Your task to perform on an android device: Clear the cart on costco. Image 0: 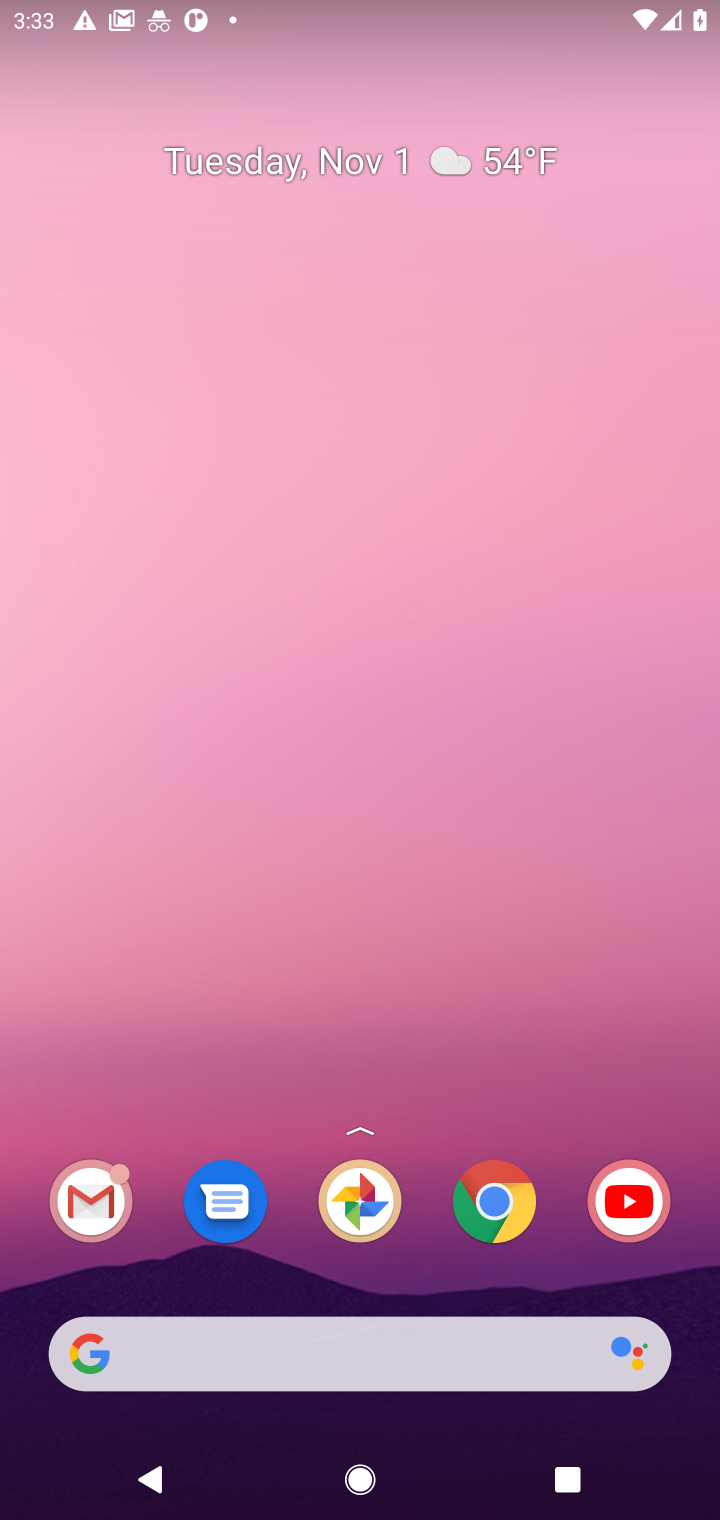
Step 0: press home button
Your task to perform on an android device: Clear the cart on costco. Image 1: 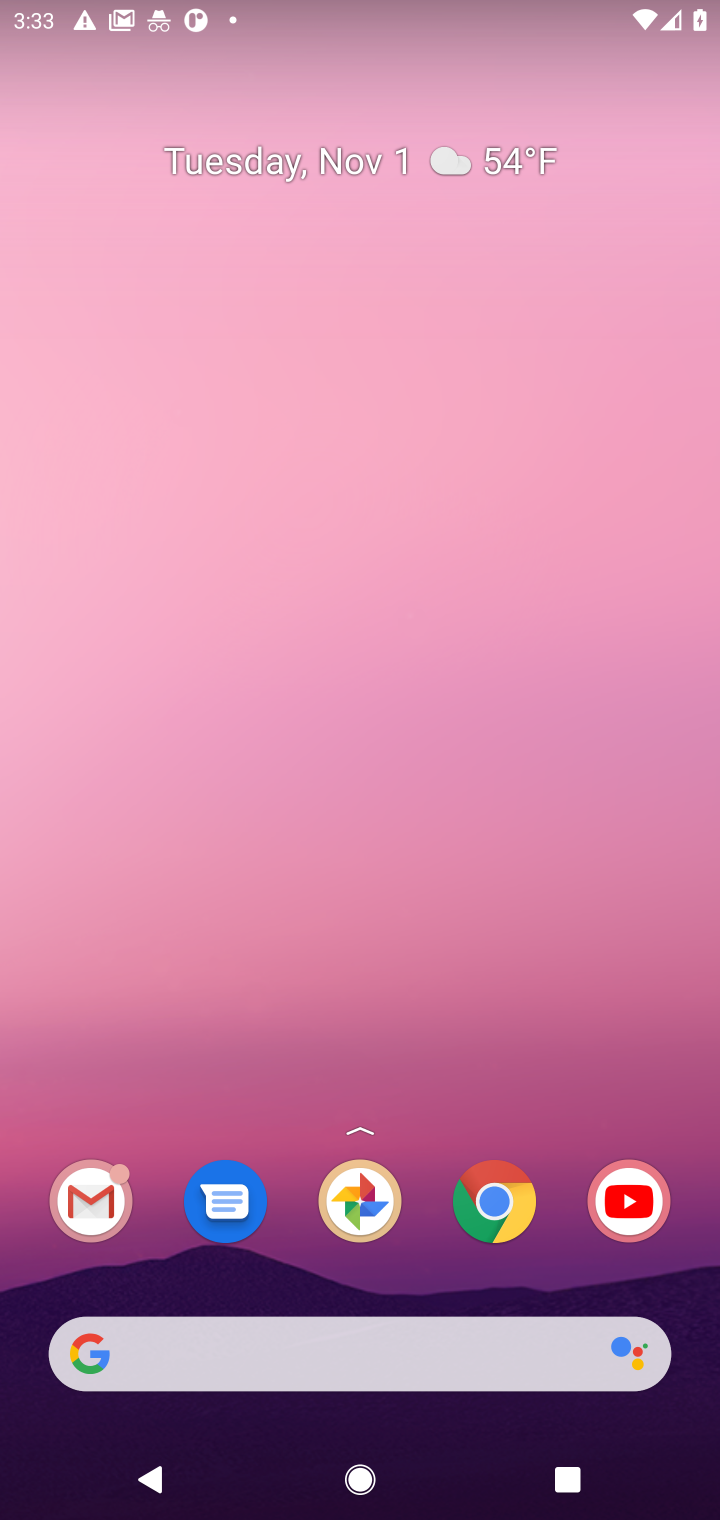
Step 1: click (276, 445)
Your task to perform on an android device: Clear the cart on costco. Image 2: 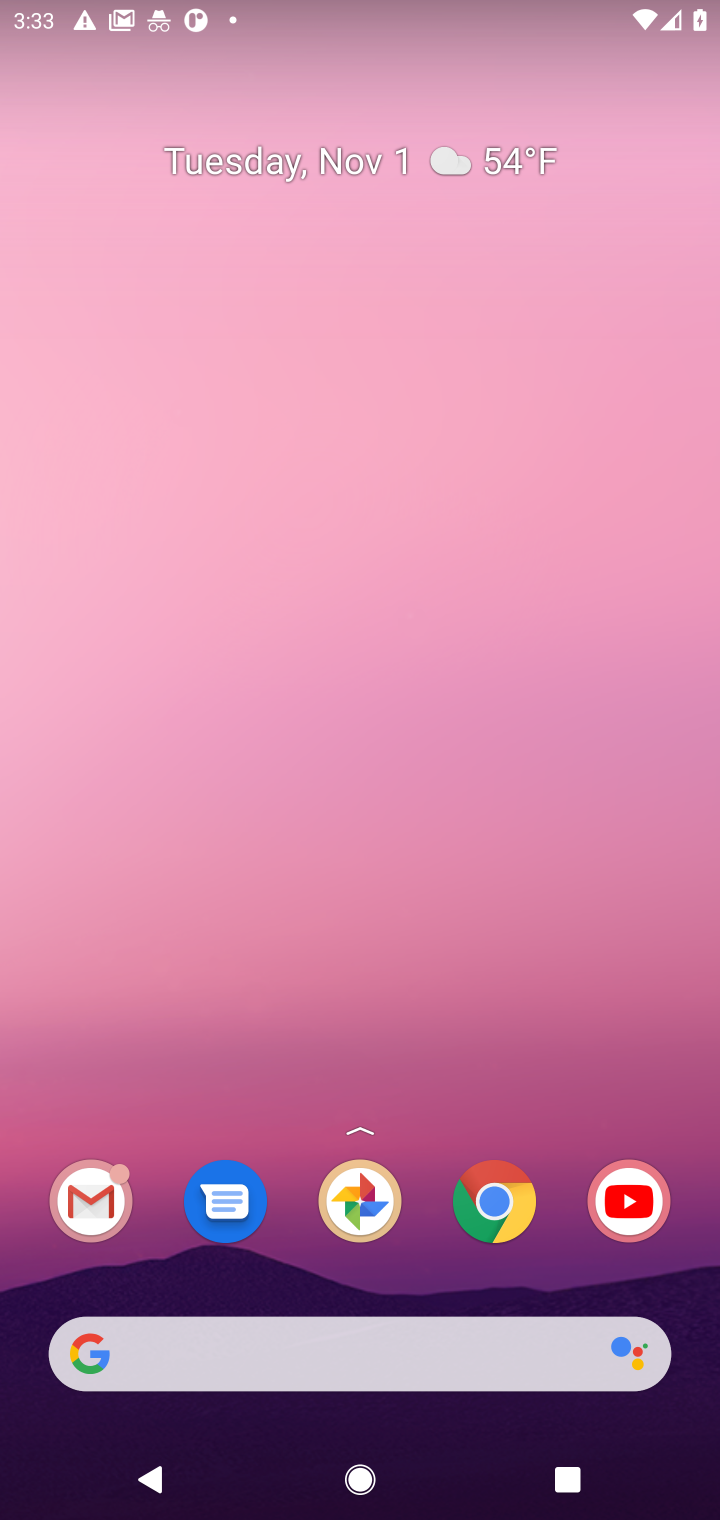
Step 2: drag from (265, 1234) to (303, 636)
Your task to perform on an android device: Clear the cart on costco. Image 3: 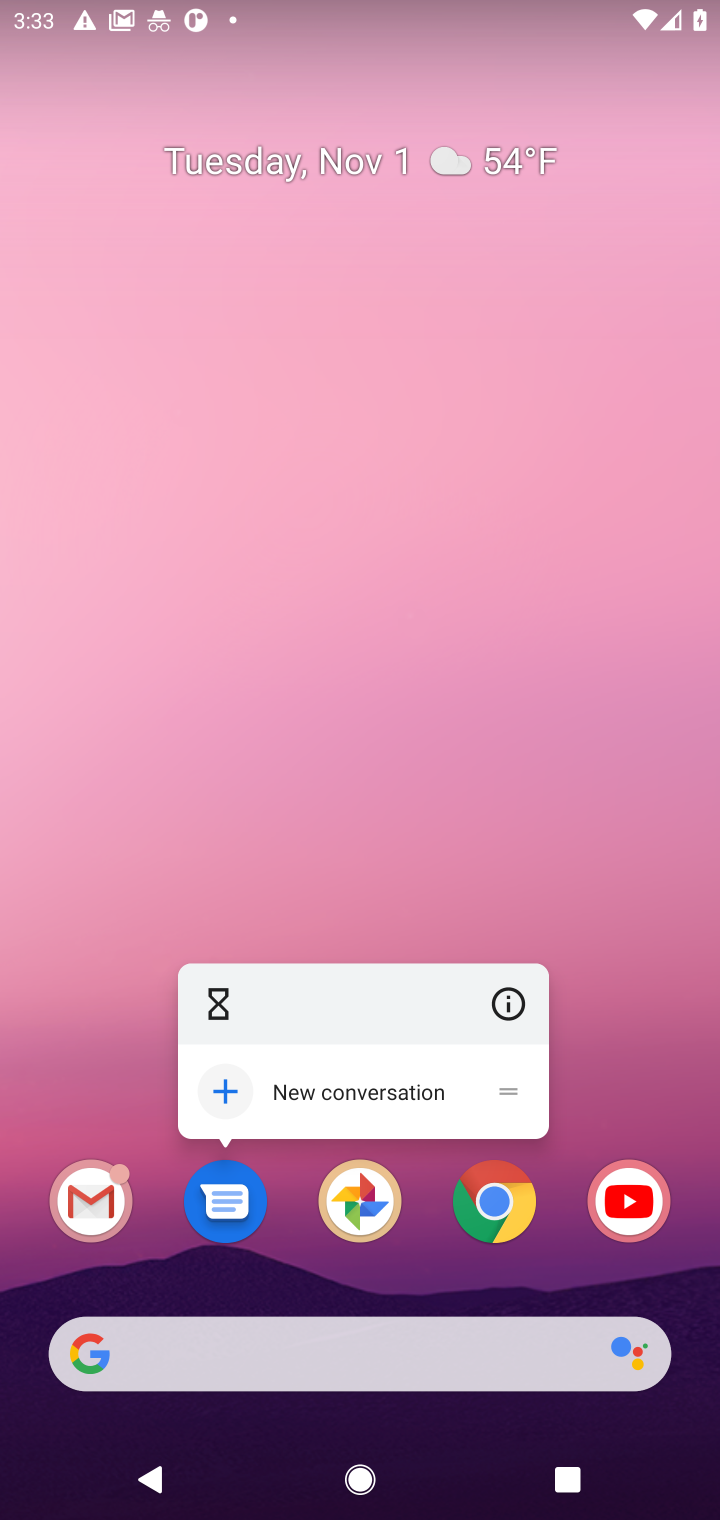
Step 3: click (264, 748)
Your task to perform on an android device: Clear the cart on costco. Image 4: 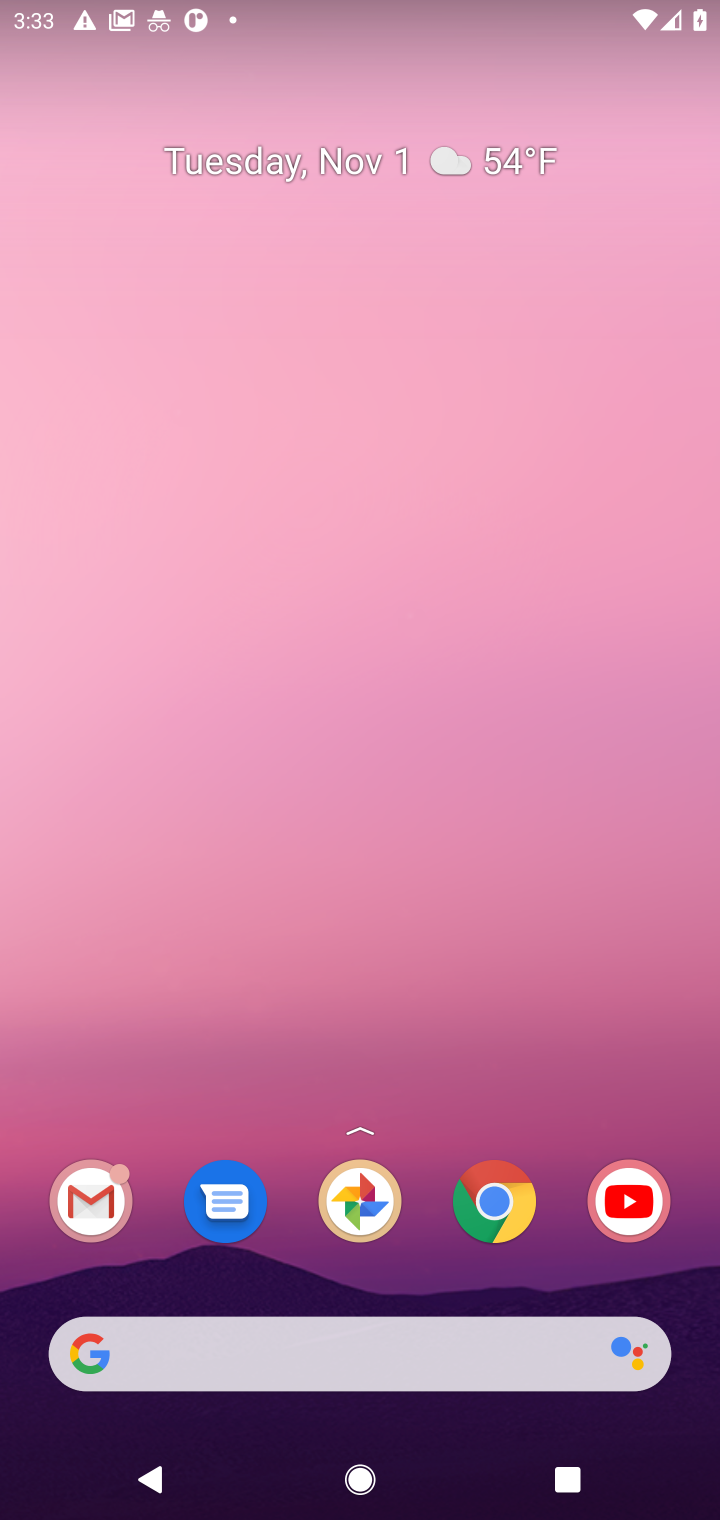
Step 4: drag from (277, 1312) to (303, 1180)
Your task to perform on an android device: Clear the cart on costco. Image 5: 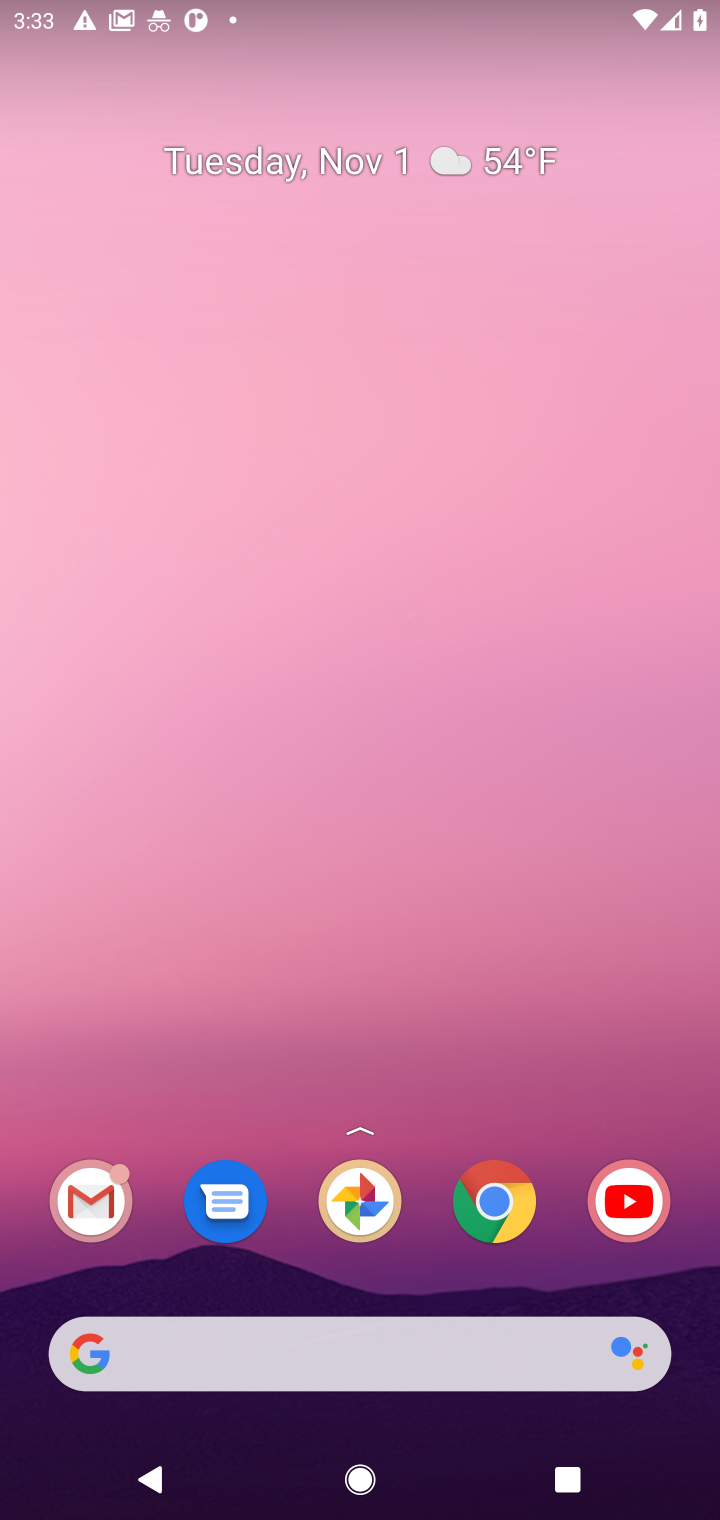
Step 5: drag from (254, 1357) to (367, 287)
Your task to perform on an android device: Clear the cart on costco. Image 6: 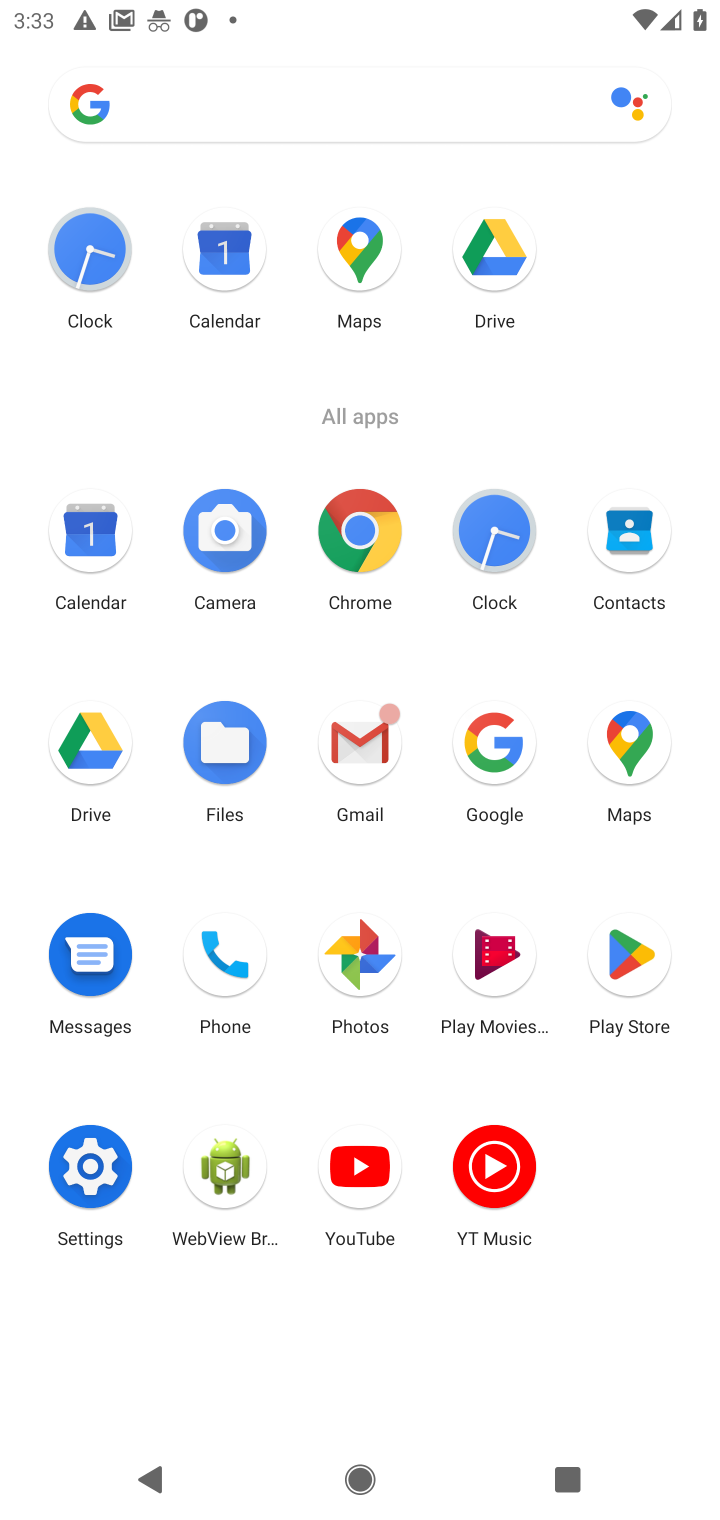
Step 6: click (475, 733)
Your task to perform on an android device: Clear the cart on costco. Image 7: 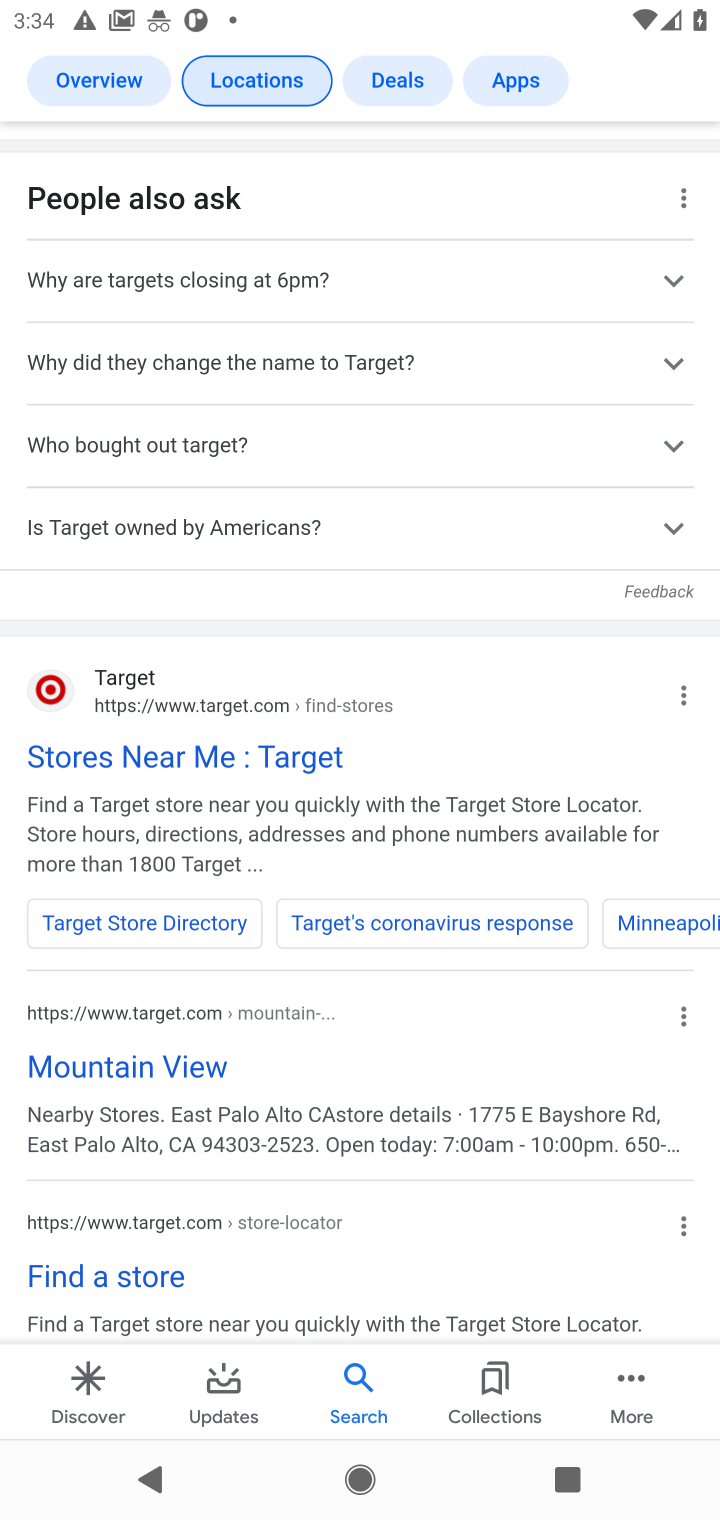
Step 7: drag from (296, 178) to (234, 1116)
Your task to perform on an android device: Clear the cart on costco. Image 8: 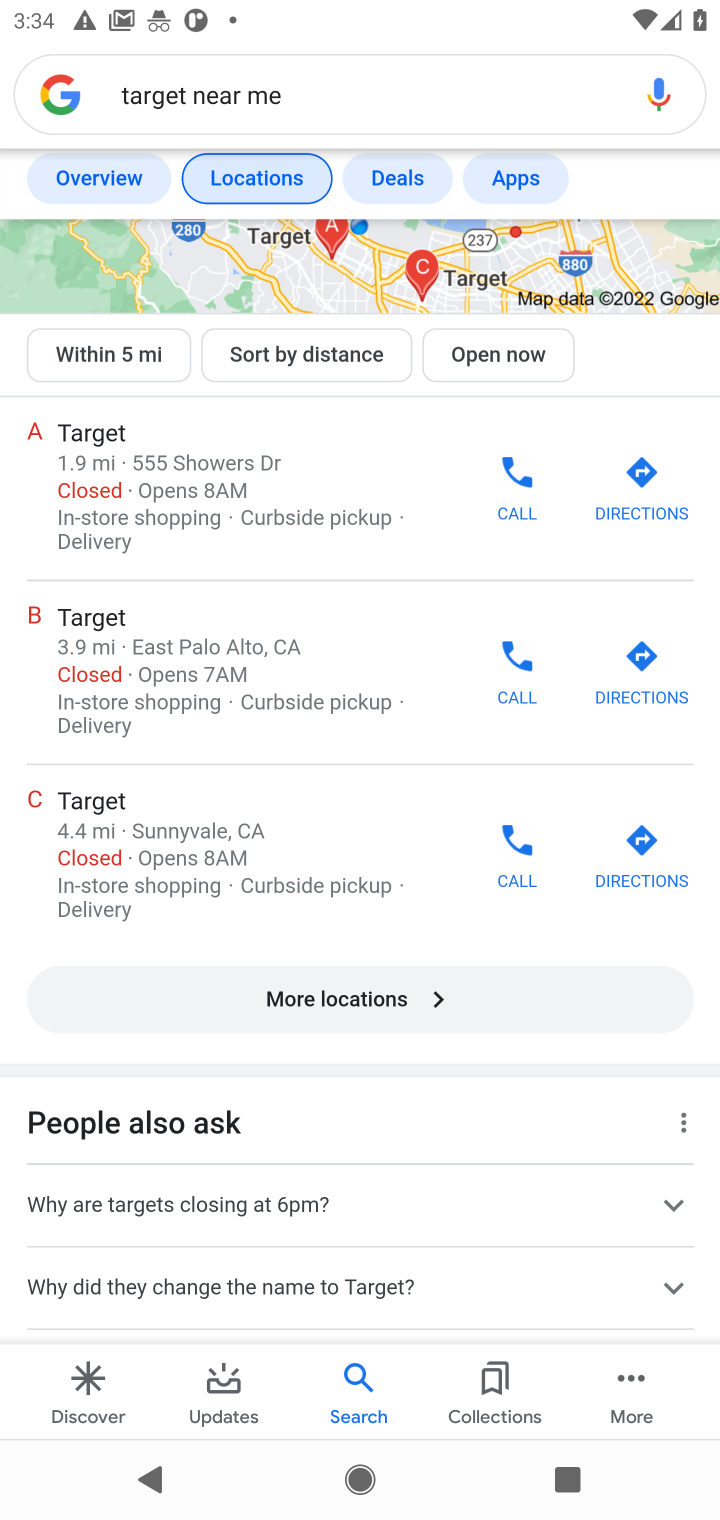
Step 8: click (297, 92)
Your task to perform on an android device: Clear the cart on costco. Image 9: 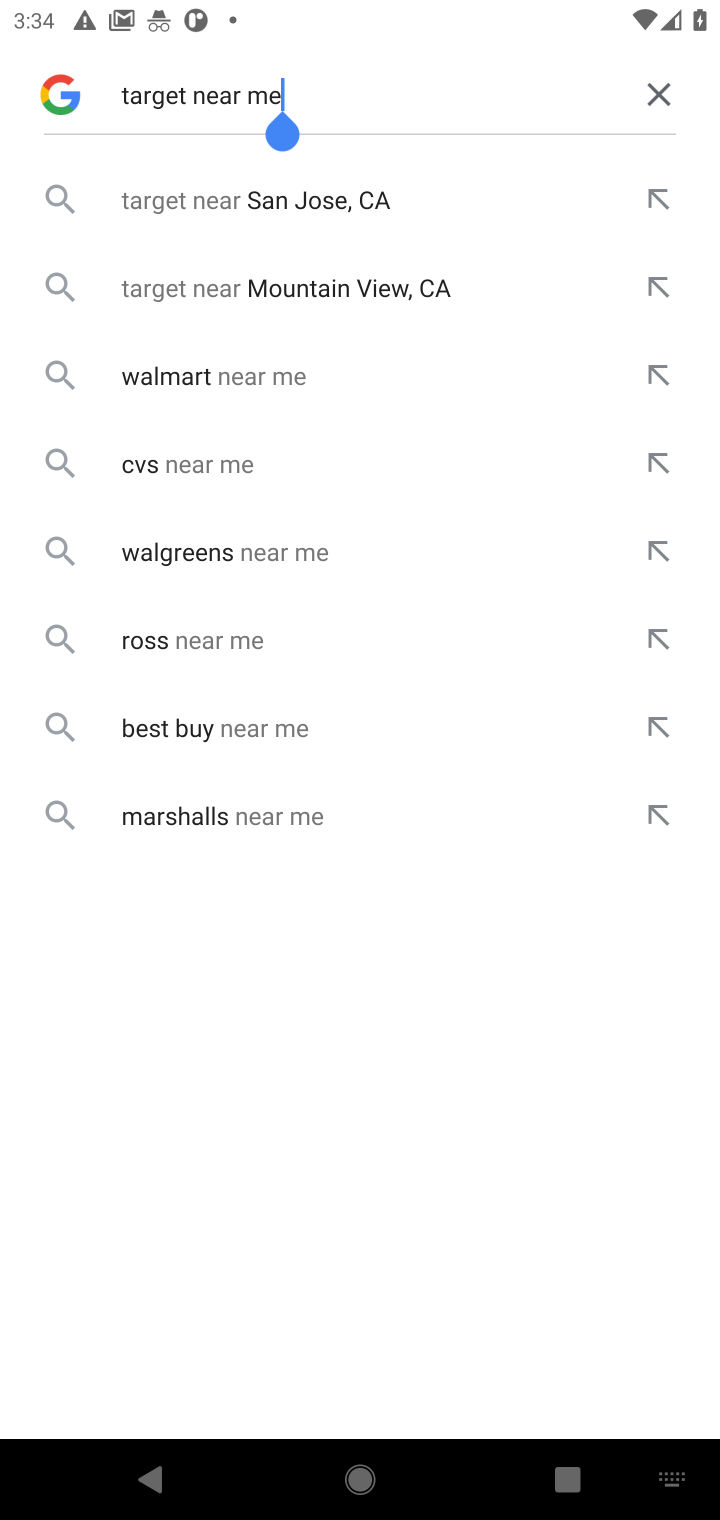
Step 9: click (653, 90)
Your task to perform on an android device: Clear the cart on costco. Image 10: 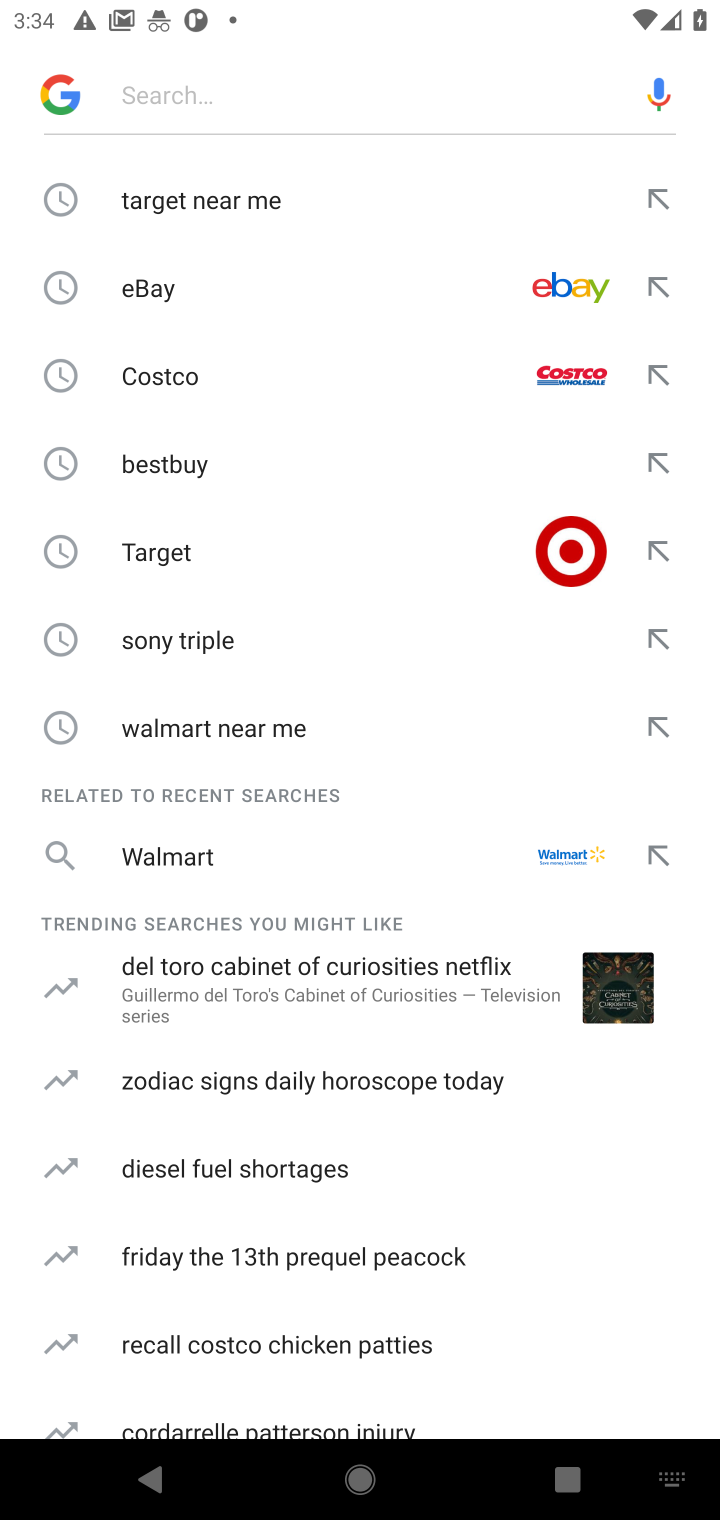
Step 10: click (229, 80)
Your task to perform on an android device: Clear the cart on costco. Image 11: 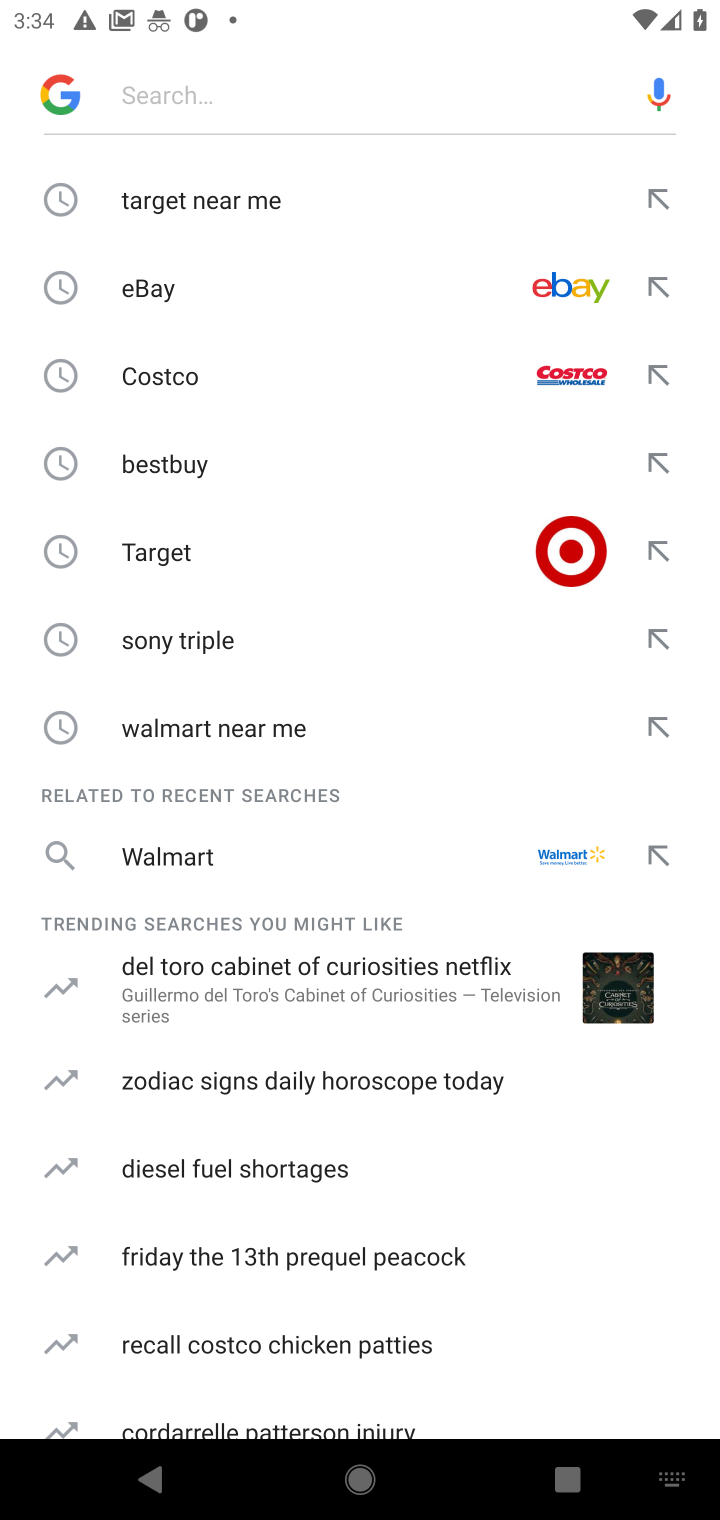
Step 11: type "costco "
Your task to perform on an android device: Clear the cart on costco. Image 12: 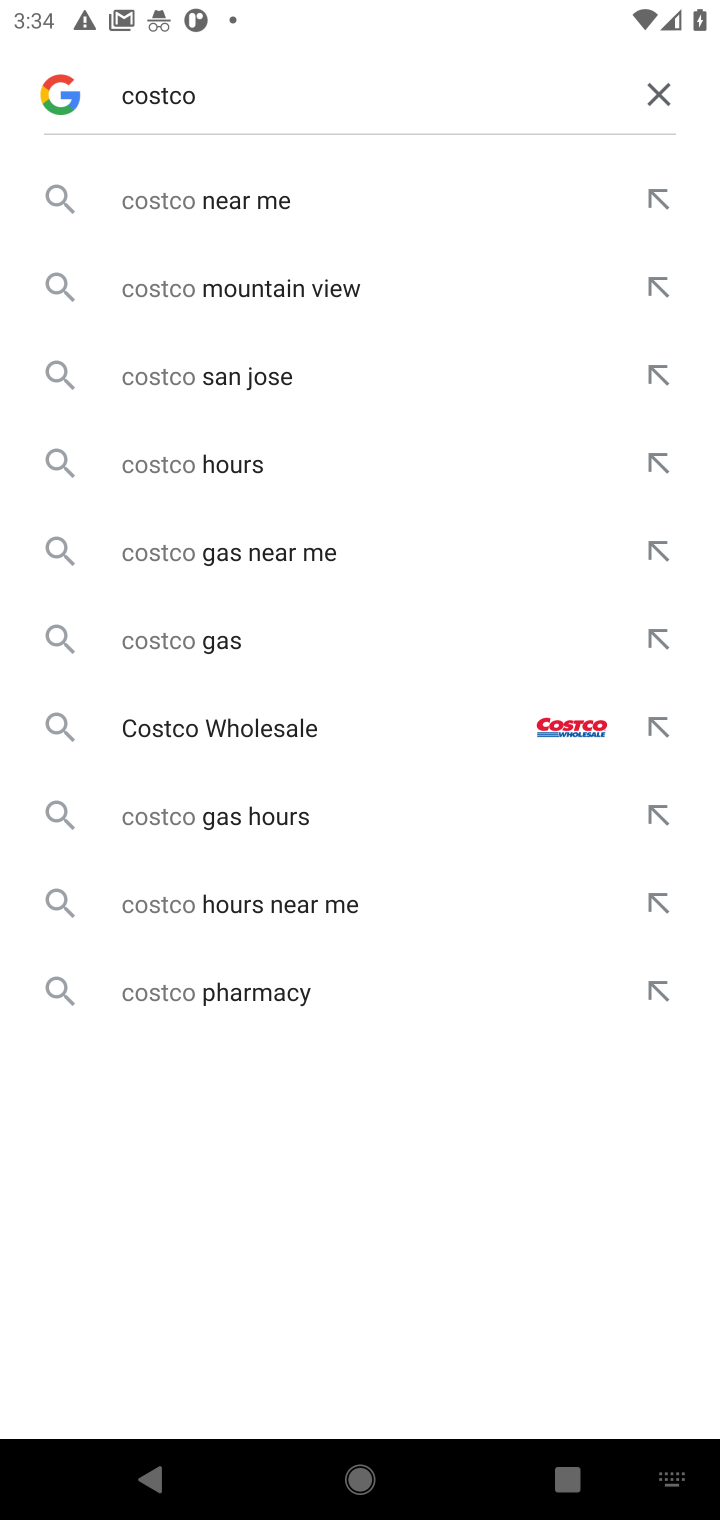
Step 12: click (264, 189)
Your task to perform on an android device: Clear the cart on costco. Image 13: 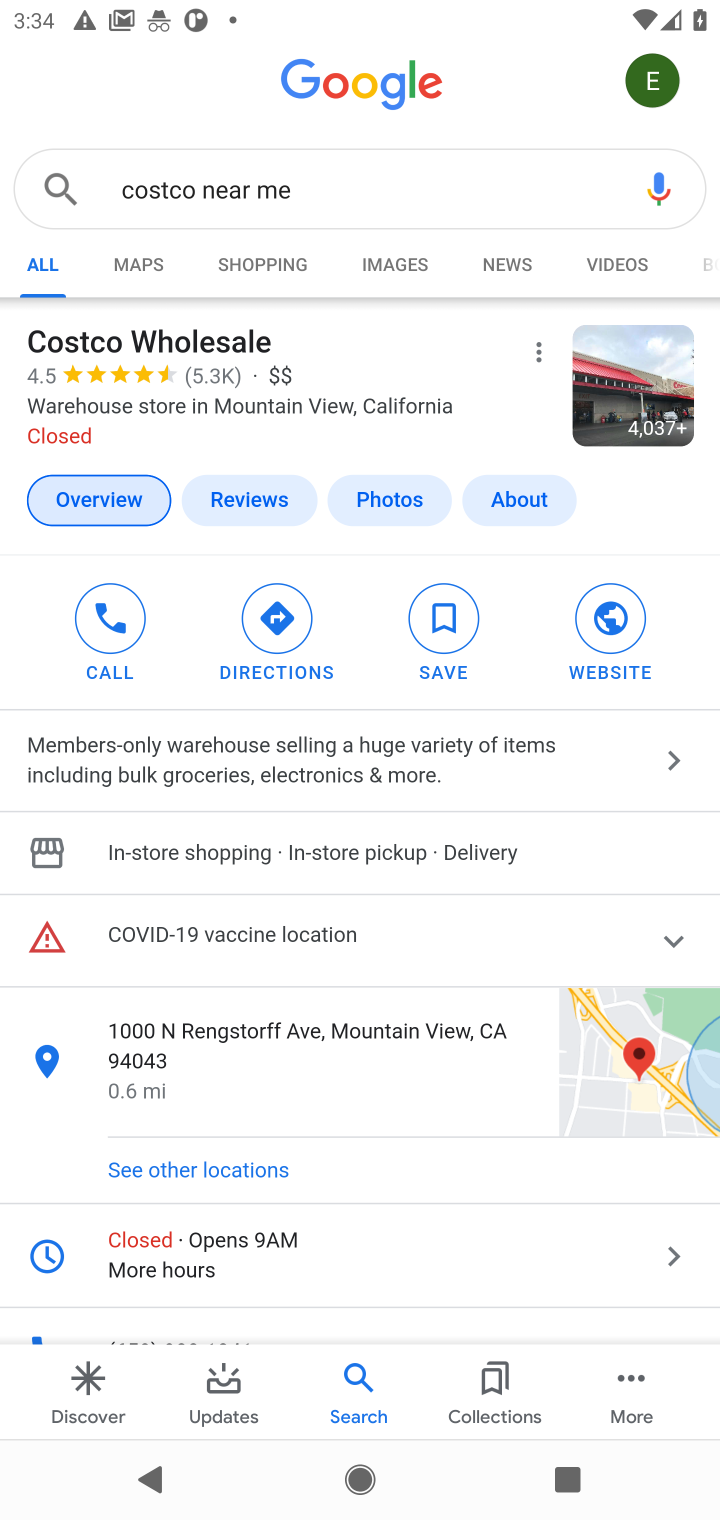
Step 13: drag from (248, 1347) to (342, 703)
Your task to perform on an android device: Clear the cart on costco. Image 14: 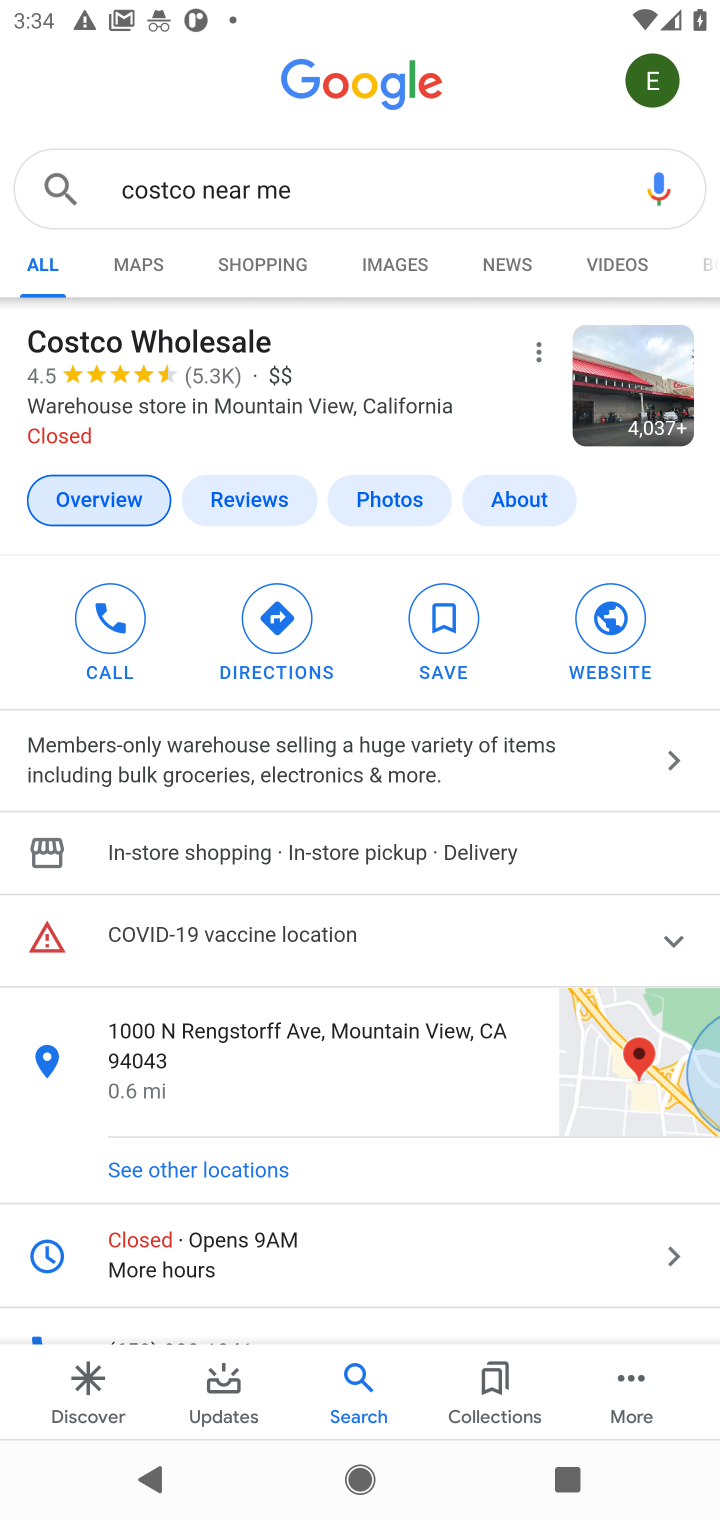
Step 14: drag from (289, 1117) to (344, 522)
Your task to perform on an android device: Clear the cart on costco. Image 15: 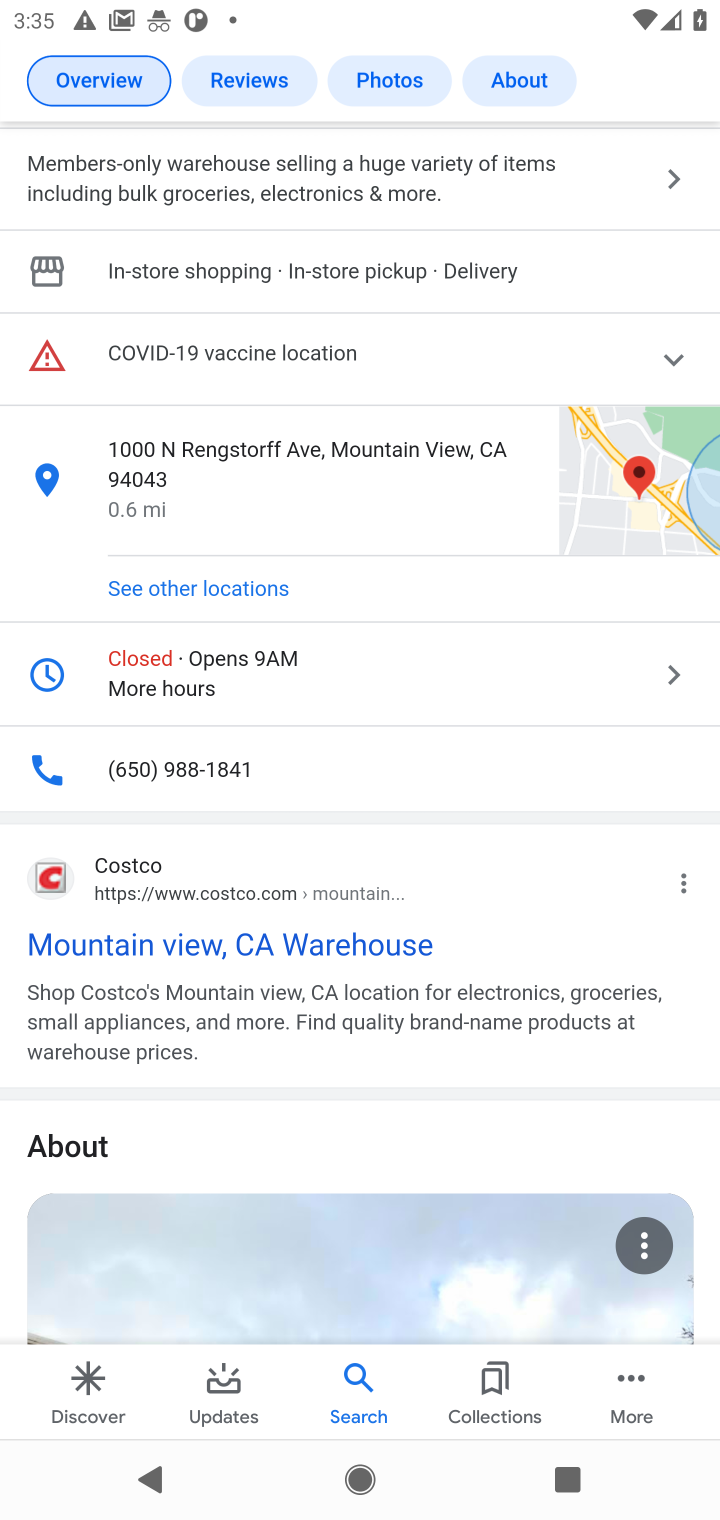
Step 15: drag from (228, 1112) to (236, 331)
Your task to perform on an android device: Clear the cart on costco. Image 16: 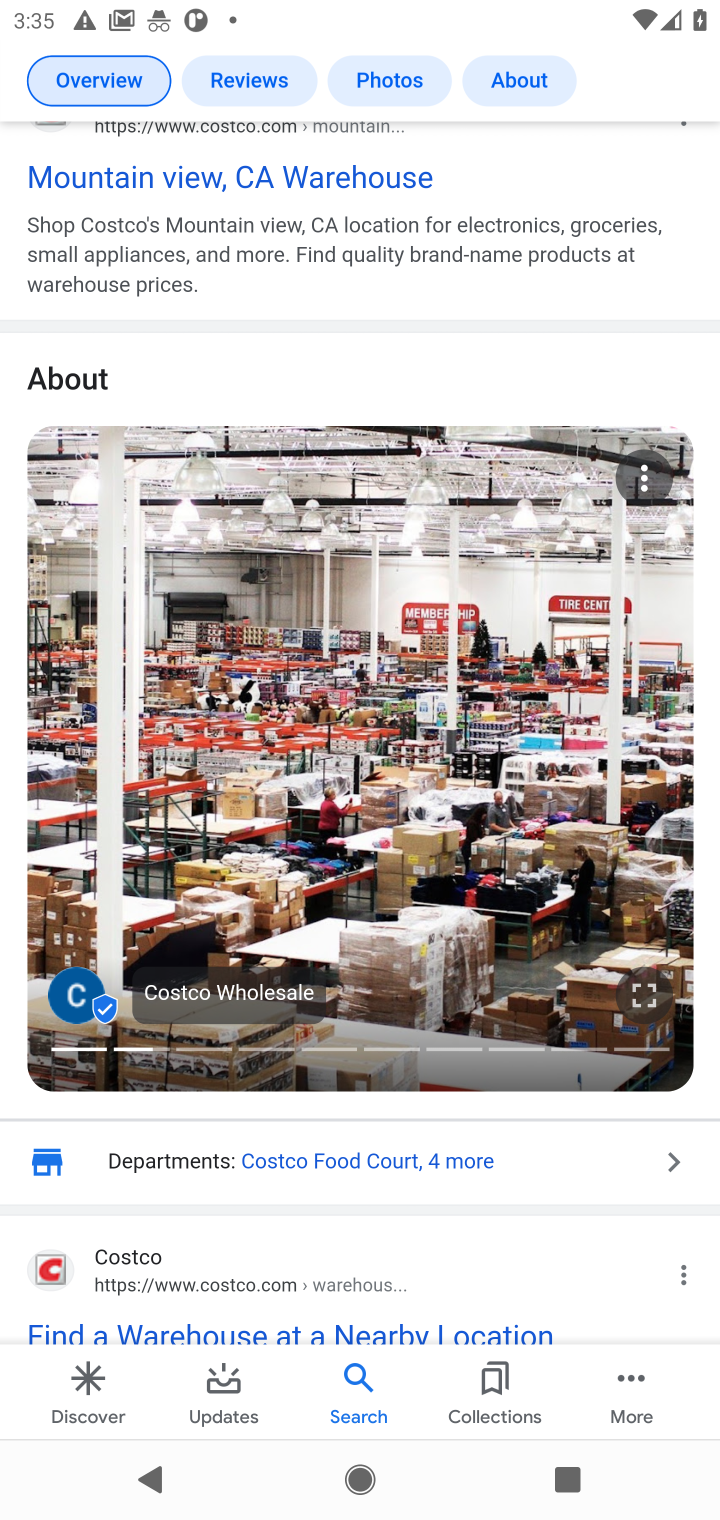
Step 16: click (38, 349)
Your task to perform on an android device: Clear the cart on costco. Image 17: 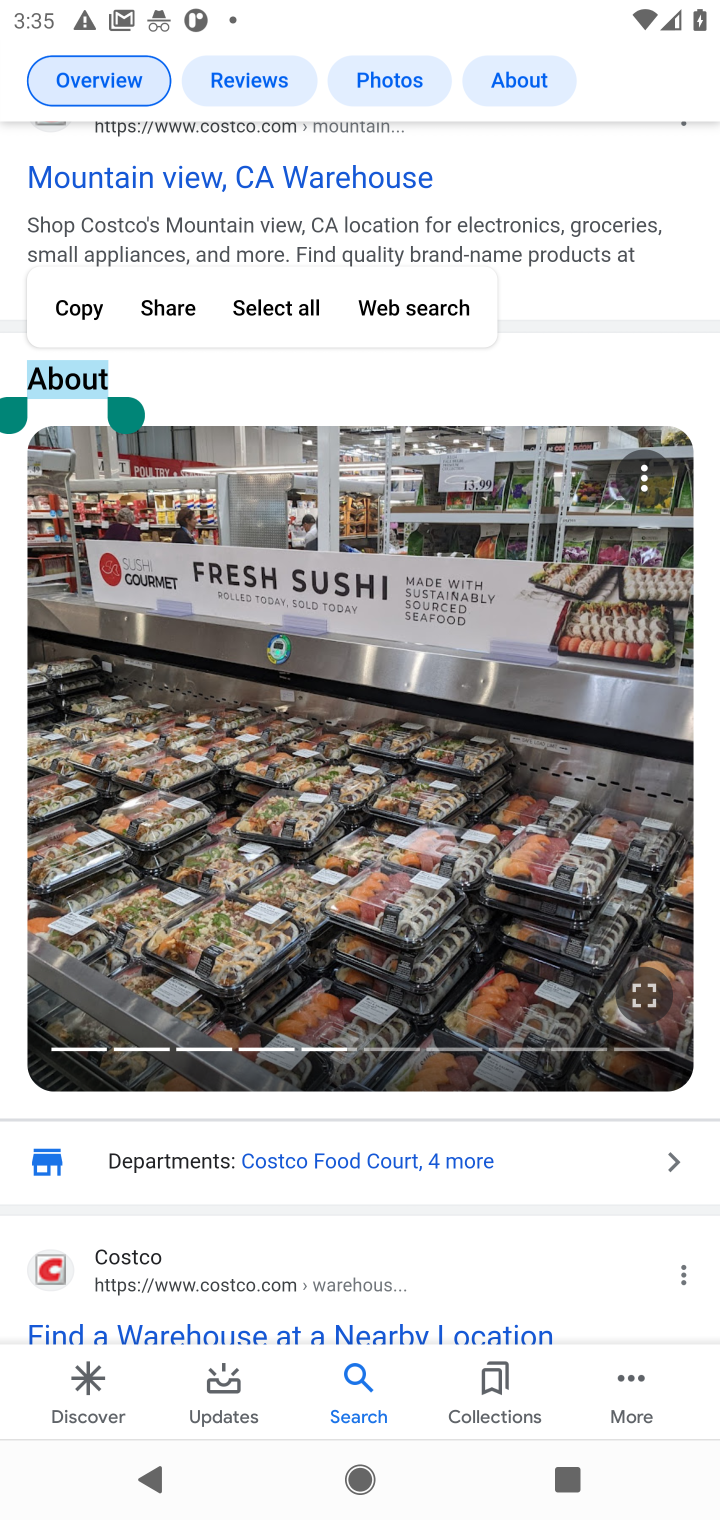
Step 17: drag from (131, 568) to (128, 999)
Your task to perform on an android device: Clear the cart on costco. Image 18: 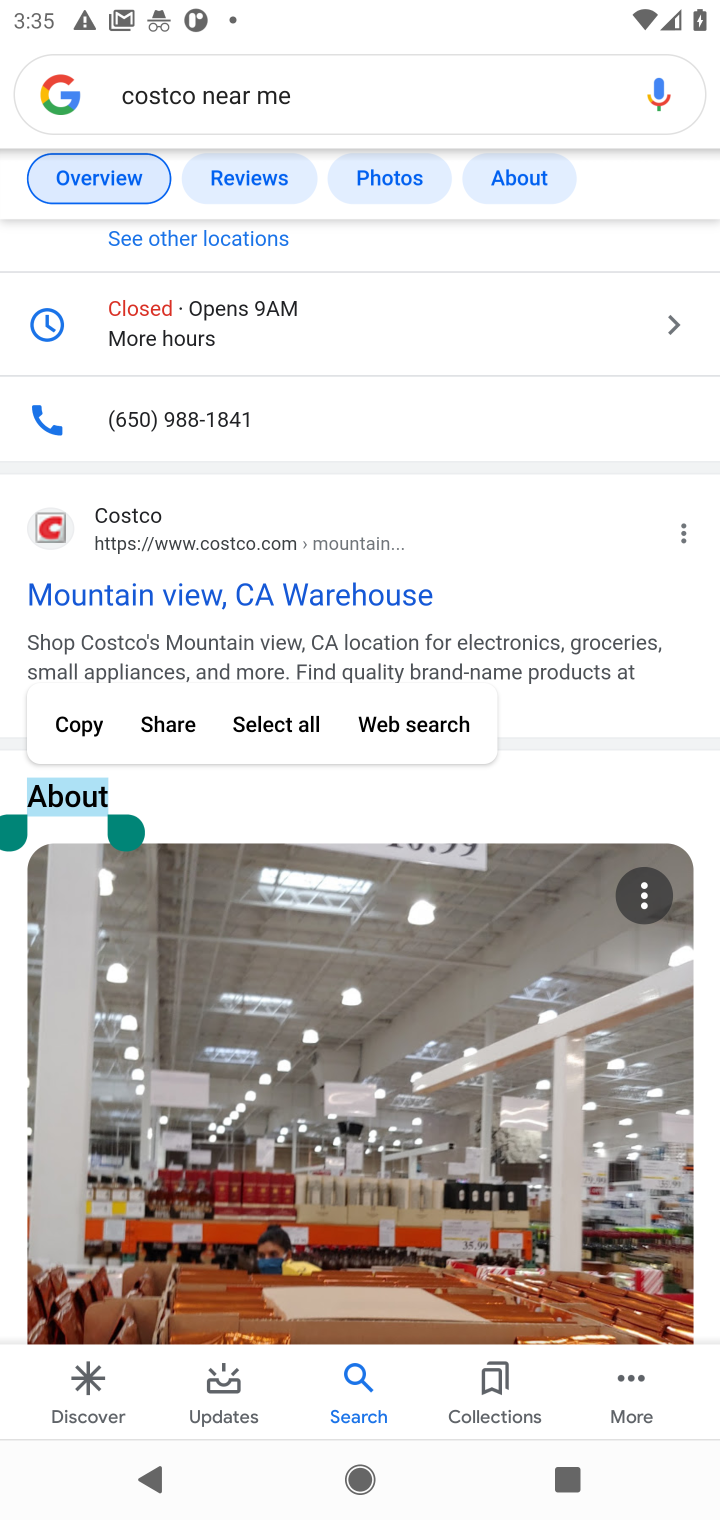
Step 18: click (56, 521)
Your task to perform on an android device: Clear the cart on costco. Image 19: 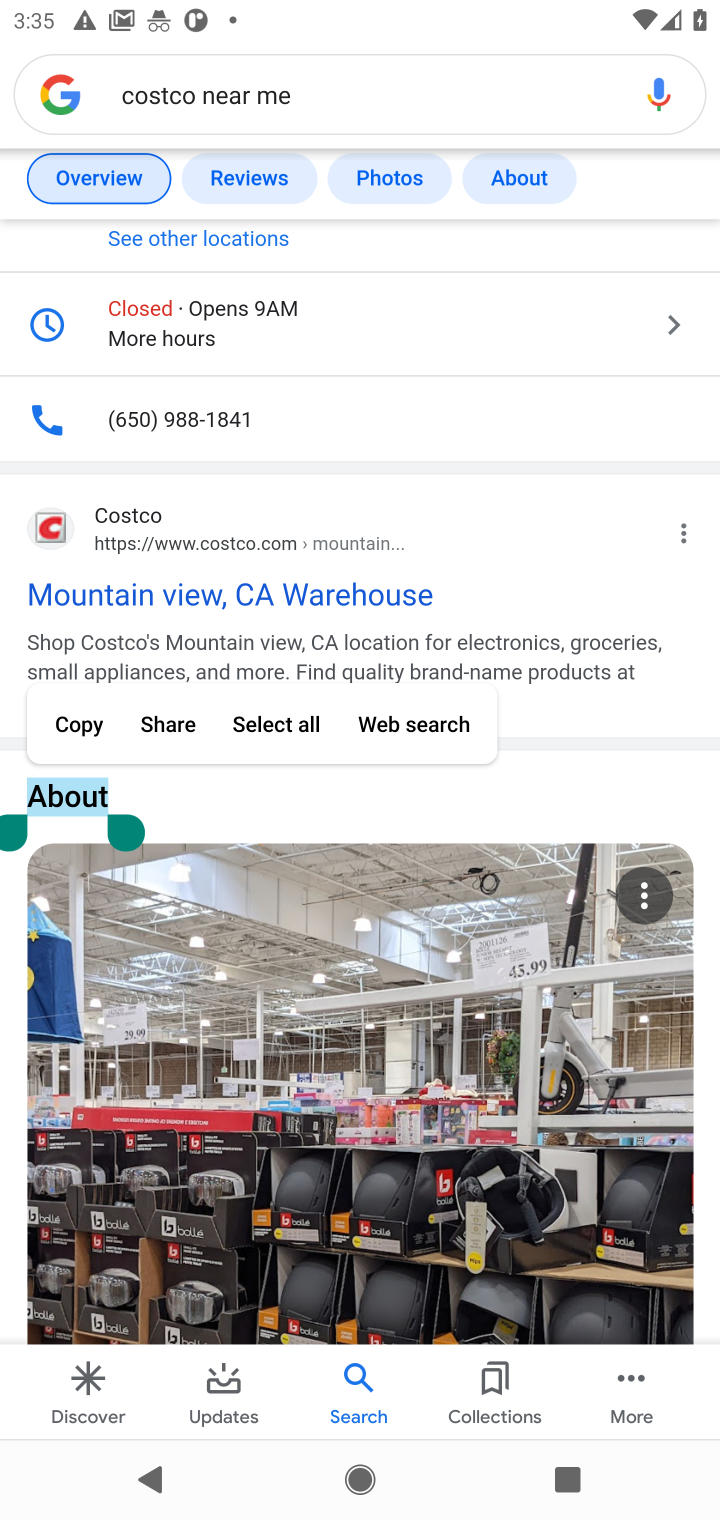
Step 19: click (44, 529)
Your task to perform on an android device: Clear the cart on costco. Image 20: 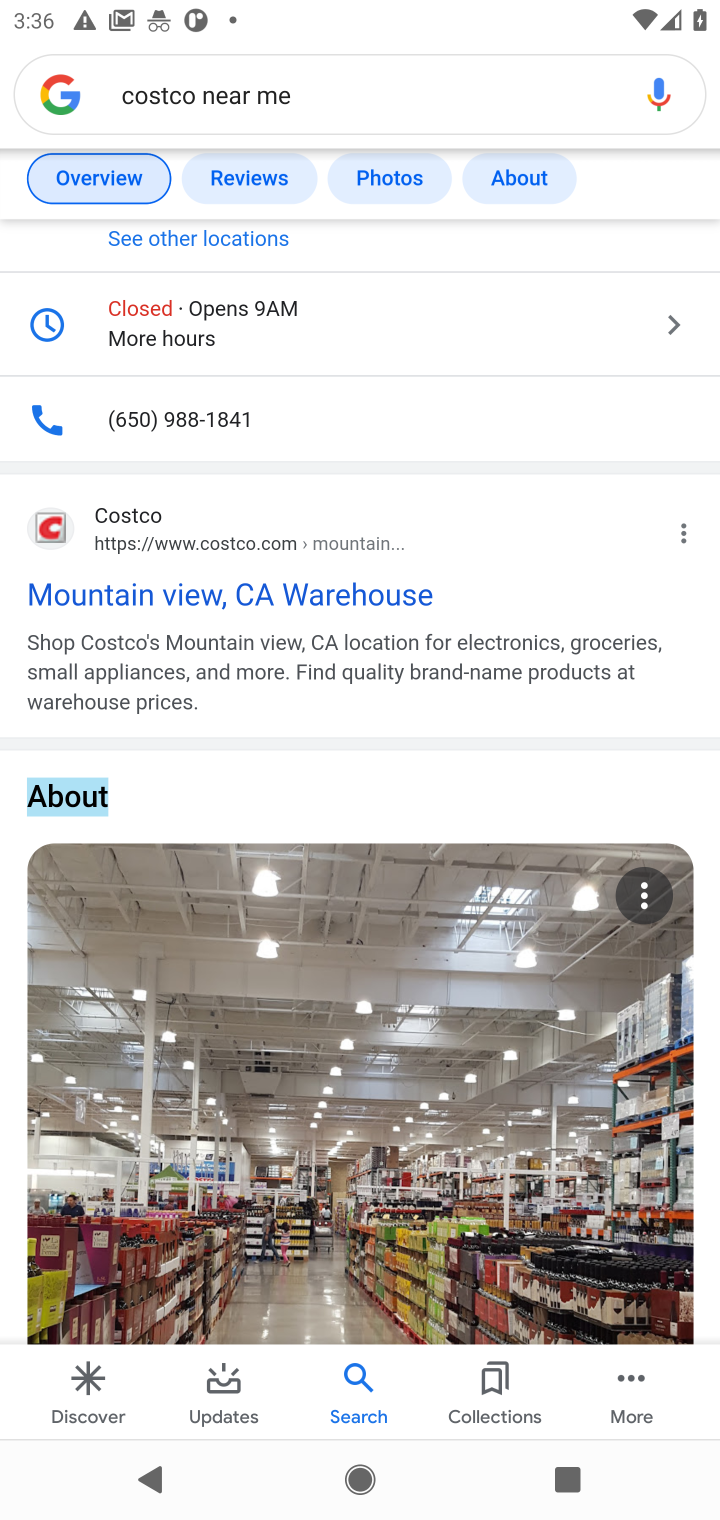
Step 20: click (135, 518)
Your task to perform on an android device: Clear the cart on costco. Image 21: 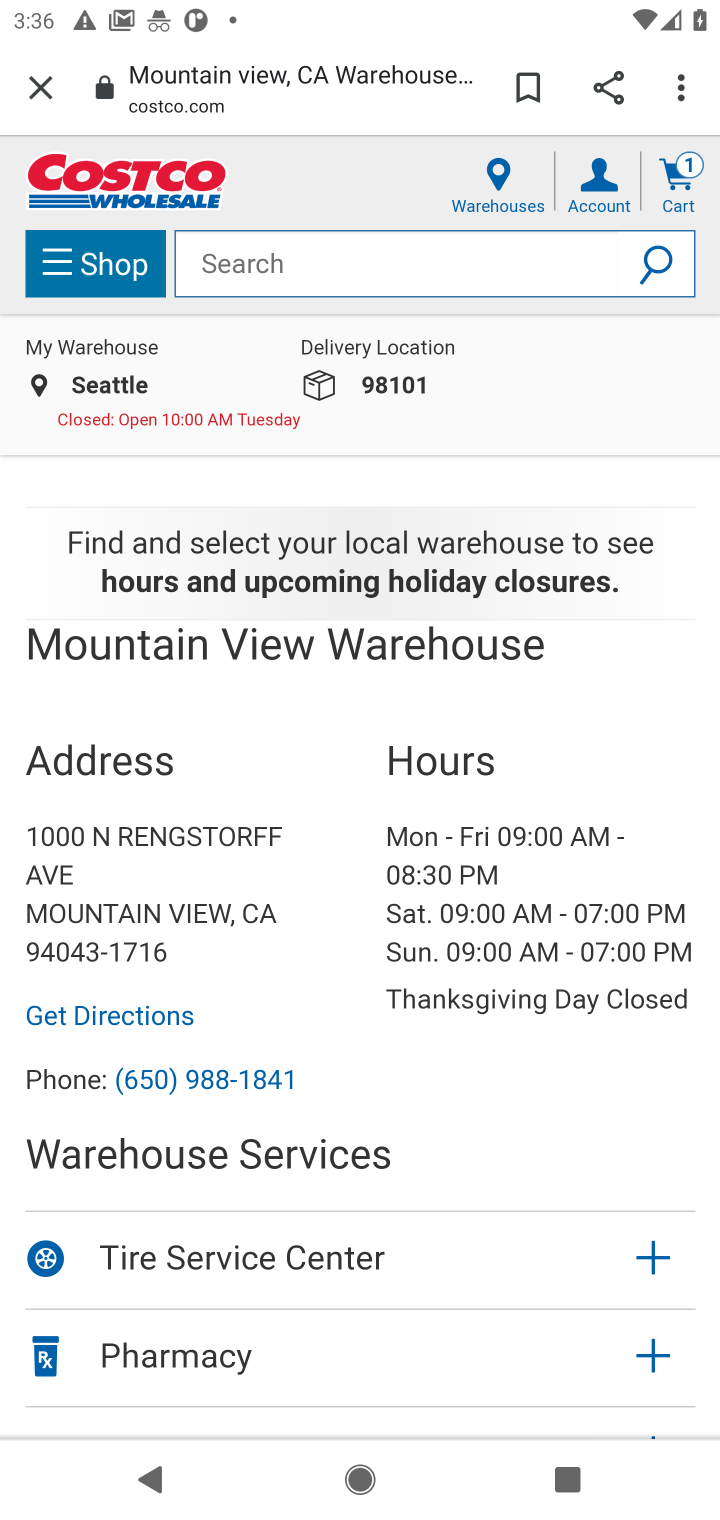
Step 21: click (680, 168)
Your task to perform on an android device: Clear the cart on costco. Image 22: 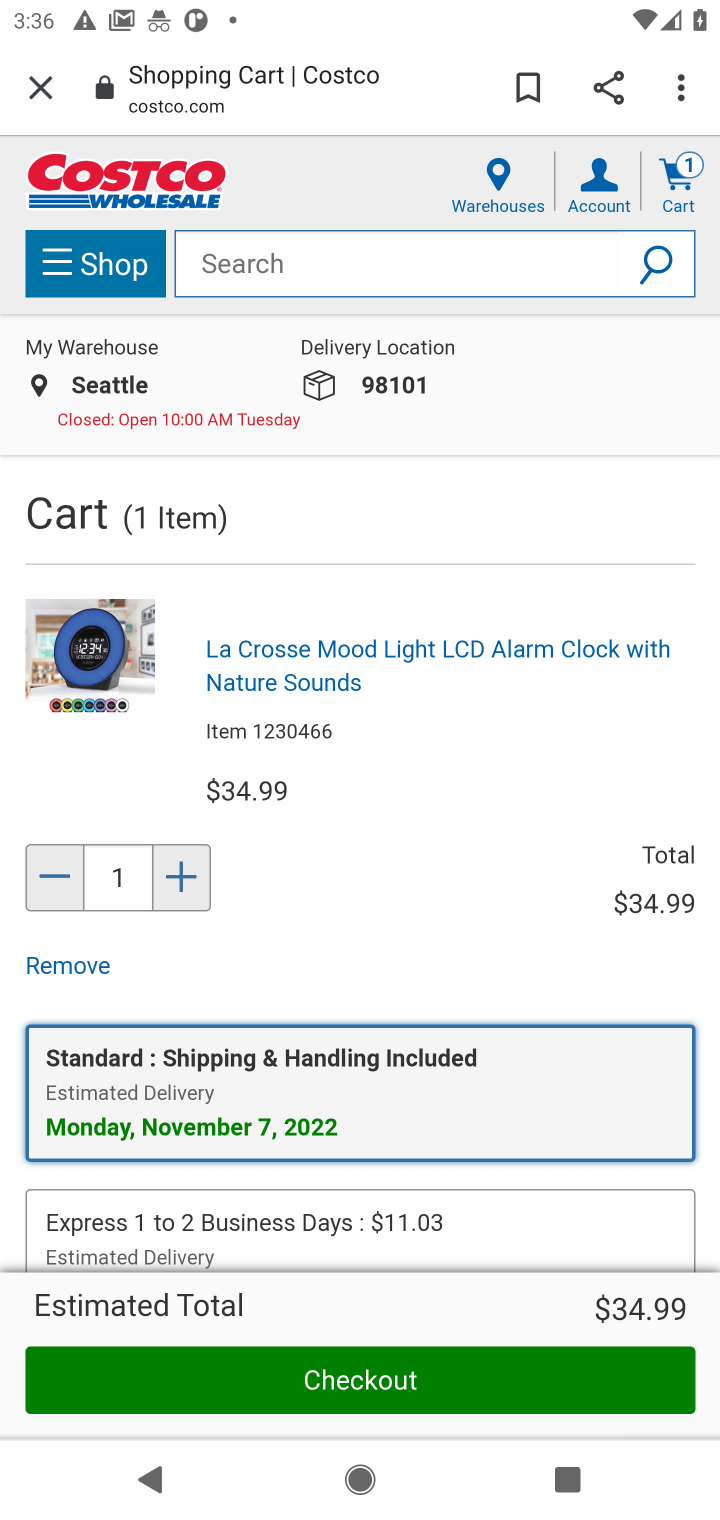
Step 22: click (76, 973)
Your task to perform on an android device: Clear the cart on costco. Image 23: 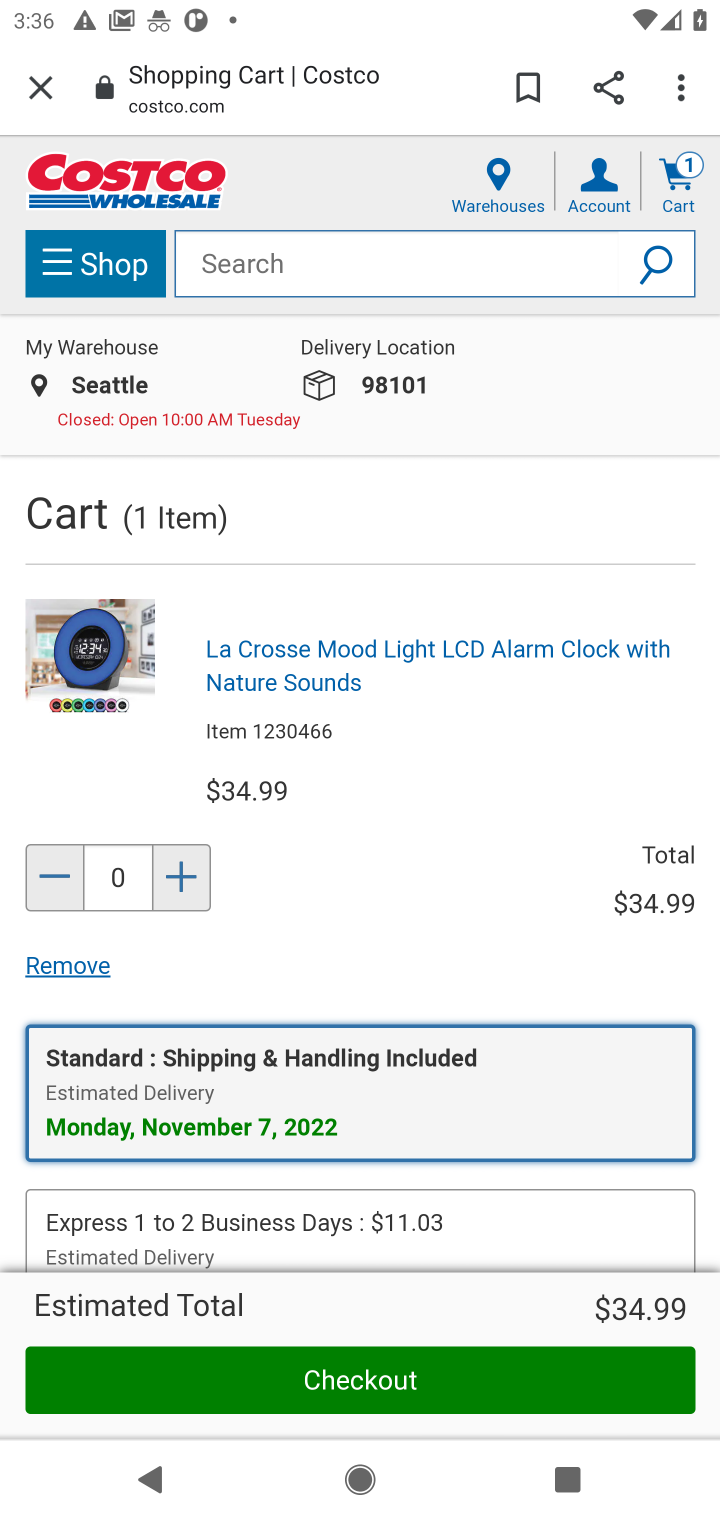
Step 23: click (65, 969)
Your task to perform on an android device: Clear the cart on costco. Image 24: 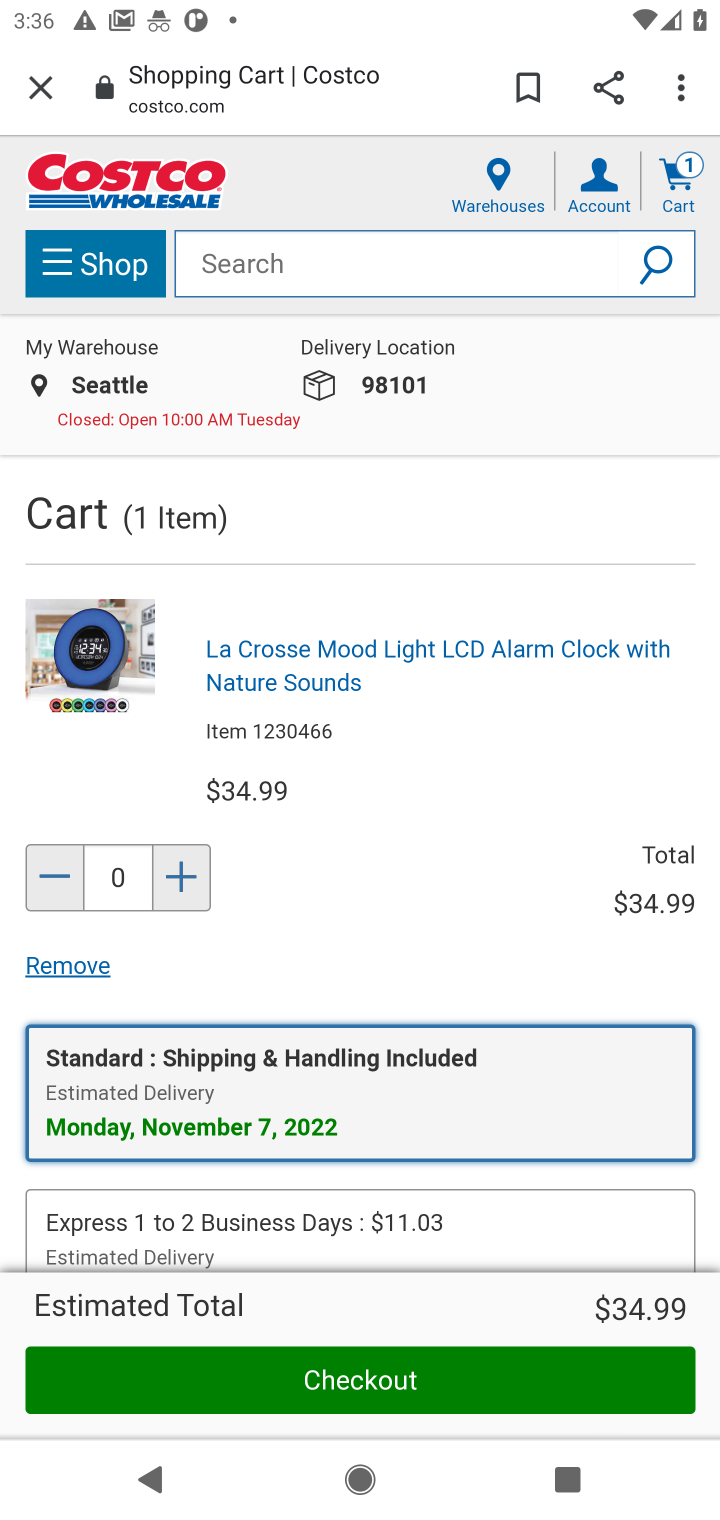
Step 24: click (65, 969)
Your task to perform on an android device: Clear the cart on costco. Image 25: 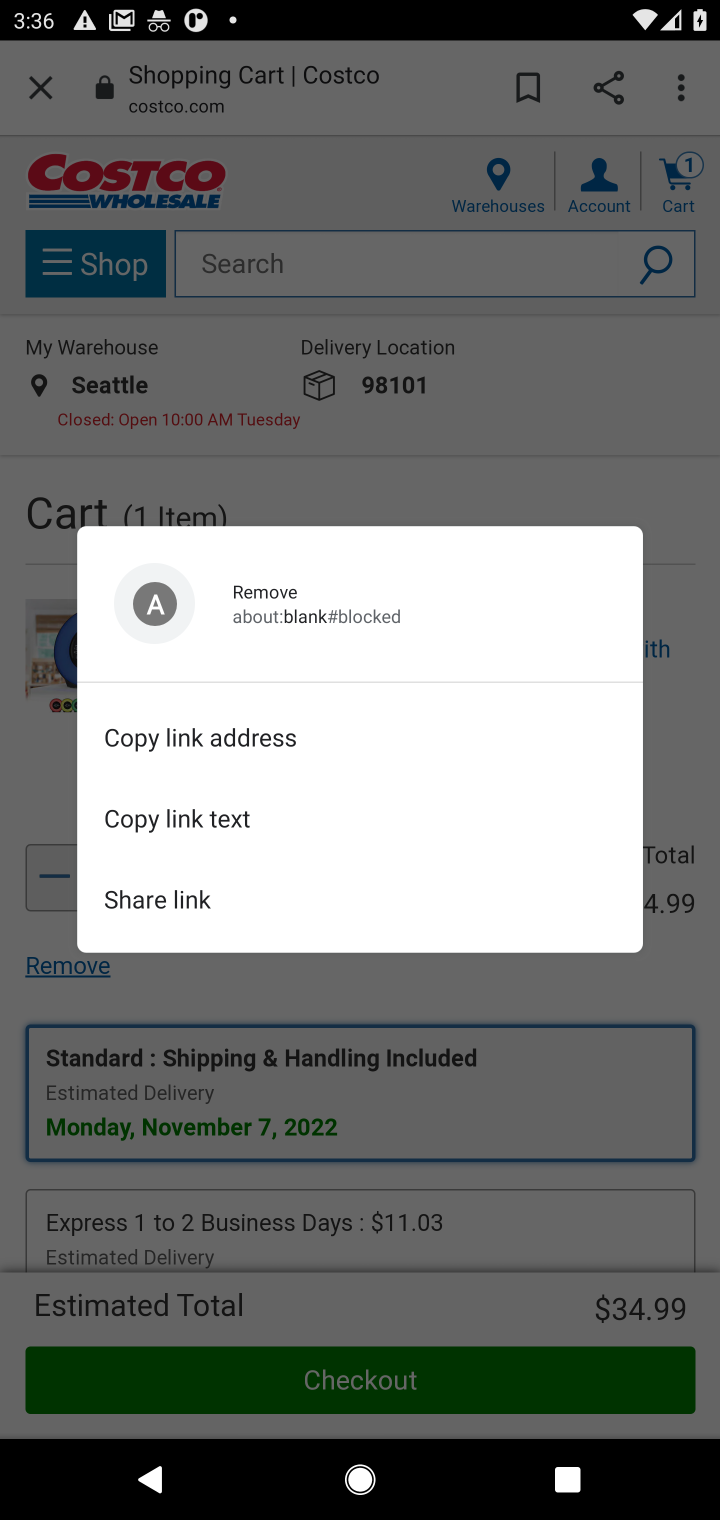
Step 25: click (75, 945)
Your task to perform on an android device: Clear the cart on costco. Image 26: 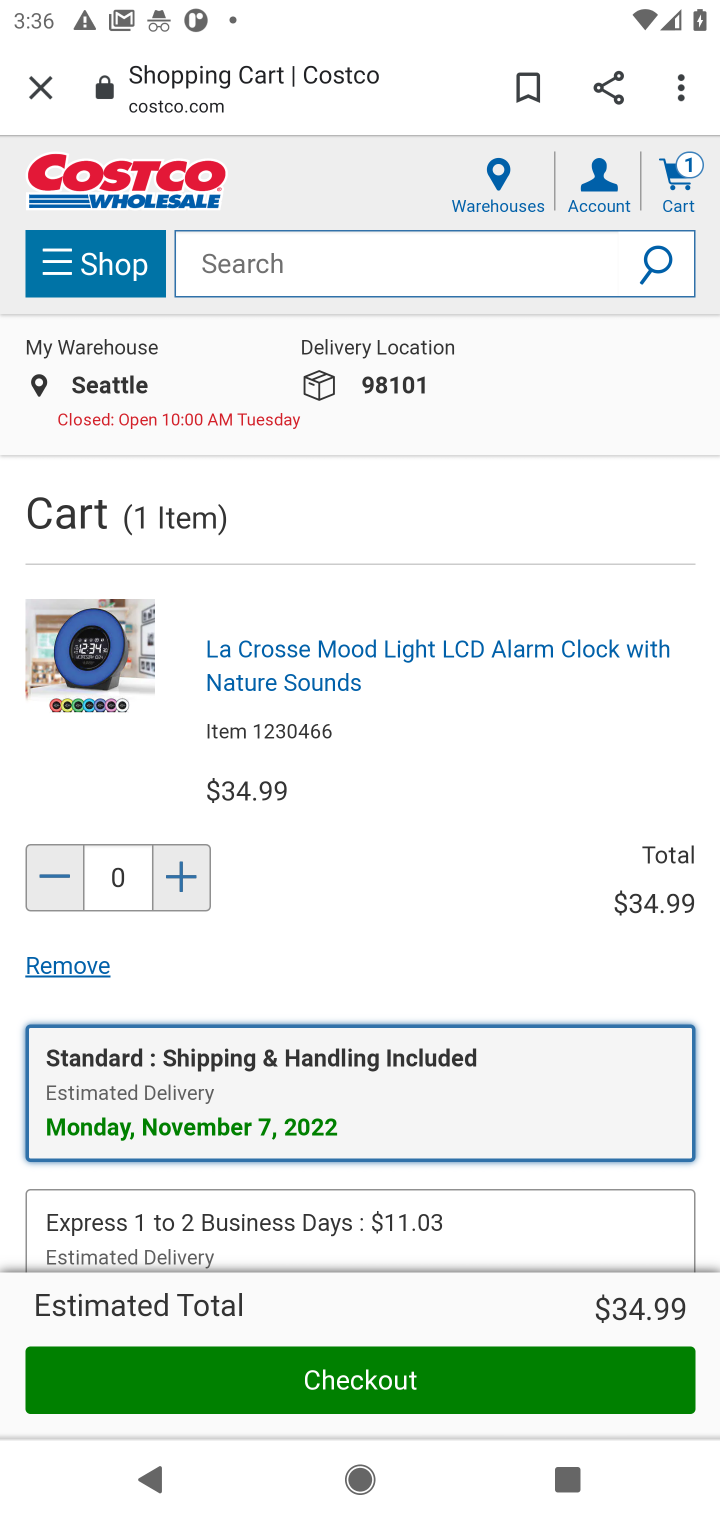
Step 26: click (83, 964)
Your task to perform on an android device: Clear the cart on costco. Image 27: 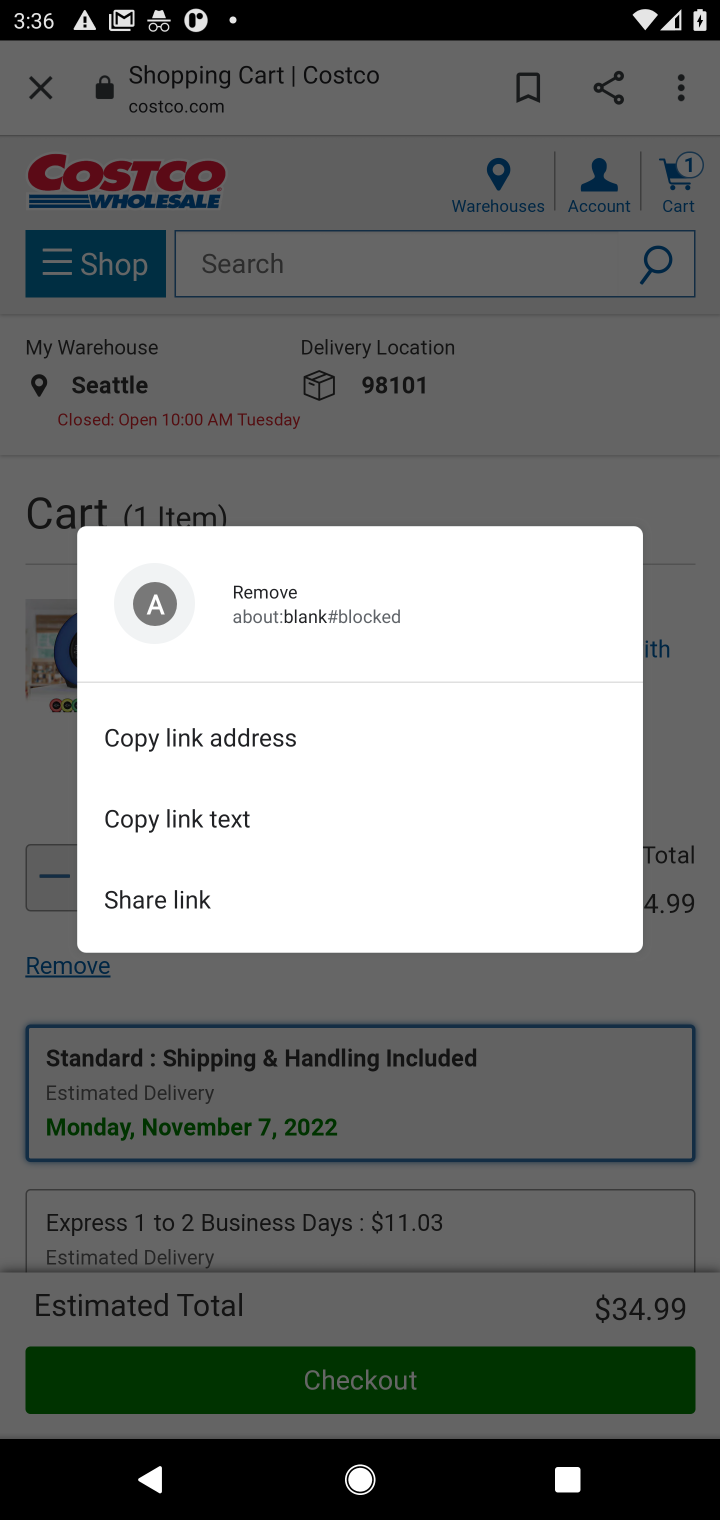
Step 27: click (478, 424)
Your task to perform on an android device: Clear the cart on costco. Image 28: 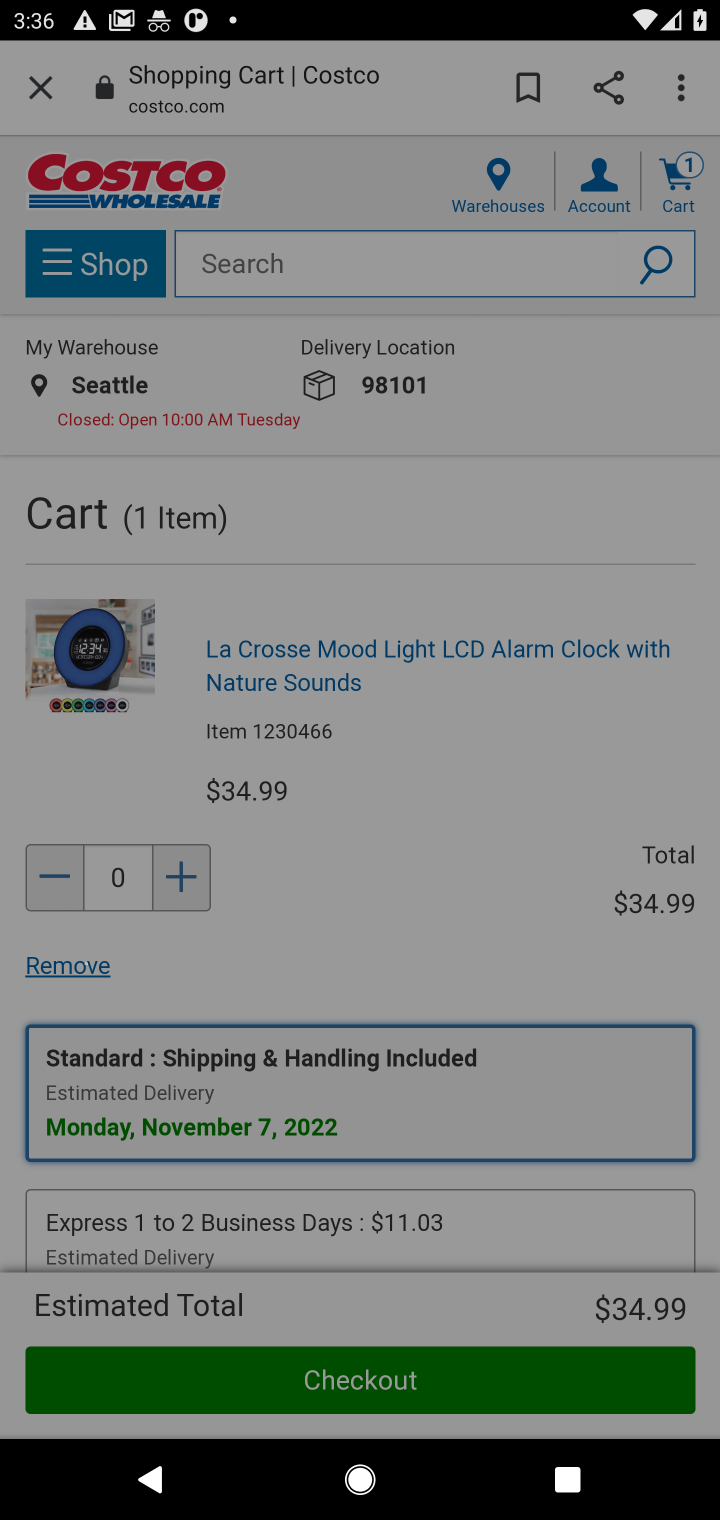
Step 28: click (244, 605)
Your task to perform on an android device: Clear the cart on costco. Image 29: 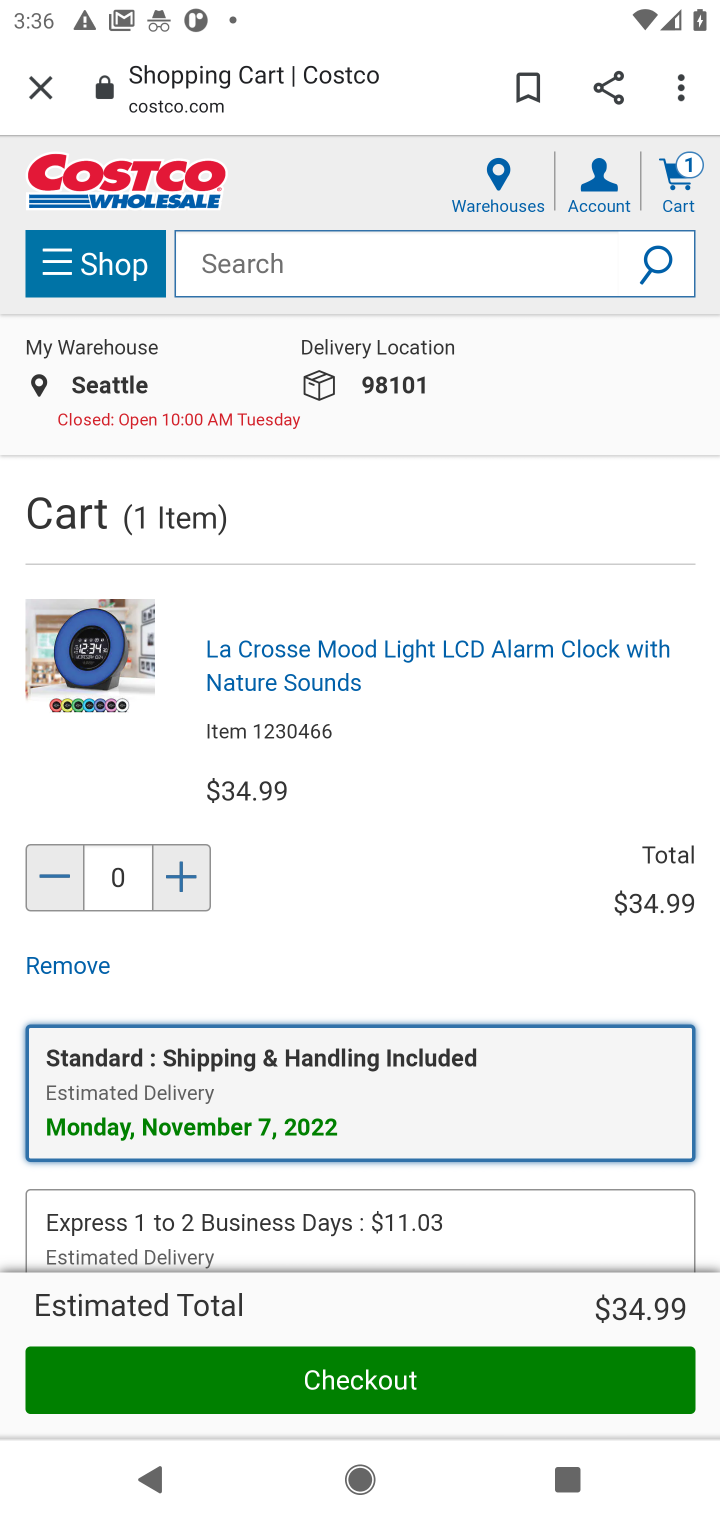
Step 29: click (80, 969)
Your task to perform on an android device: Clear the cart on costco. Image 30: 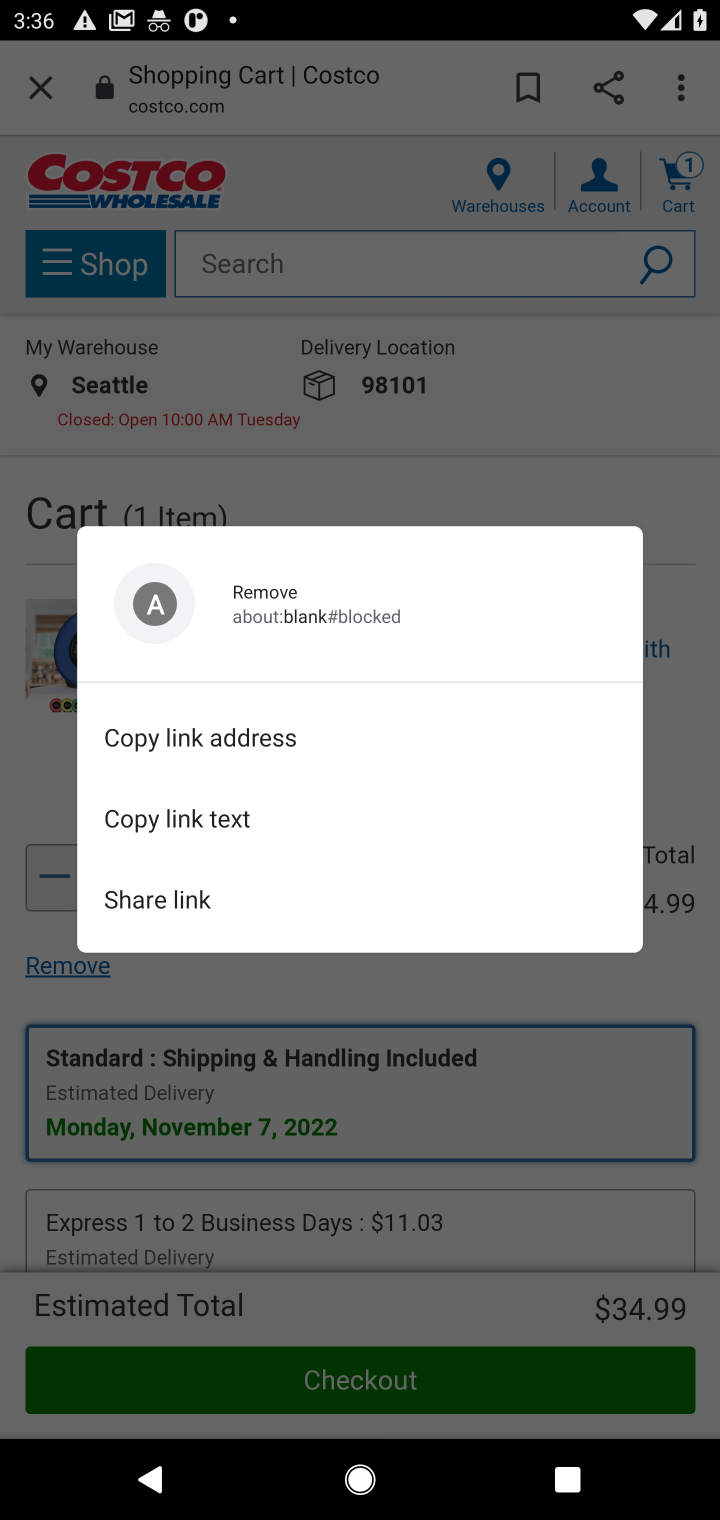
Step 30: click (317, 353)
Your task to perform on an android device: Clear the cart on costco. Image 31: 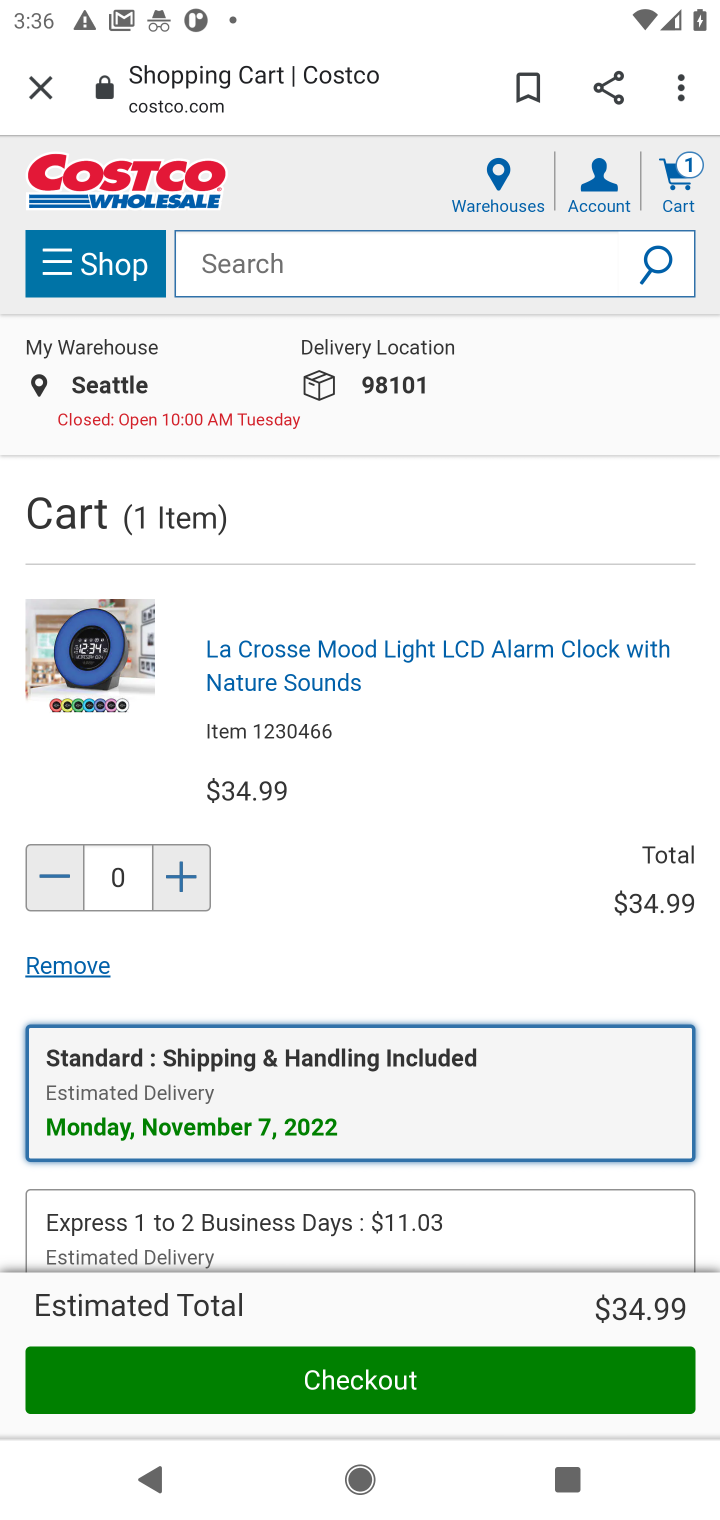
Step 31: task complete